Your task to perform on an android device: Check my gmail Image 0: 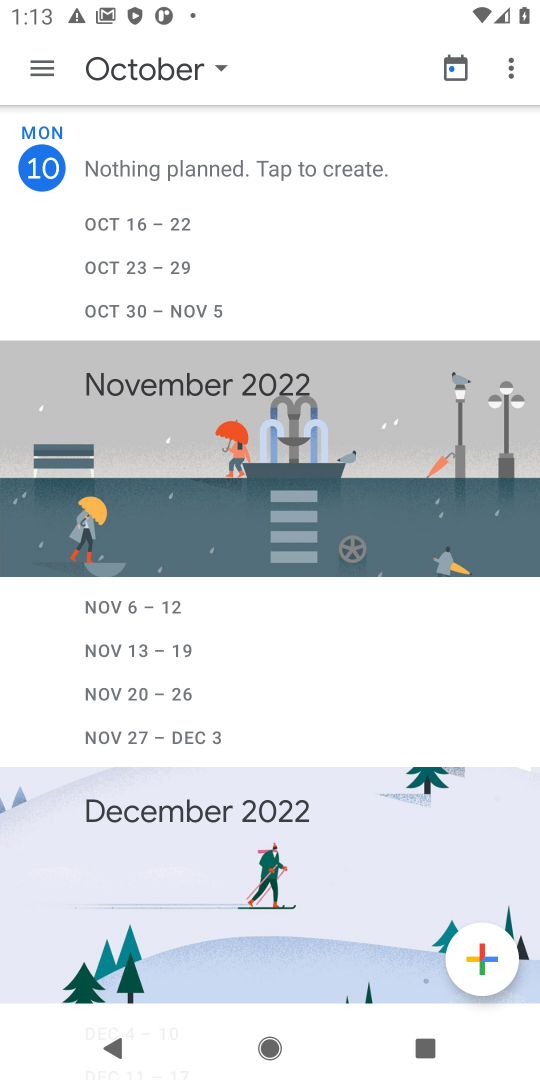
Step 0: press home button
Your task to perform on an android device: Check my gmail Image 1: 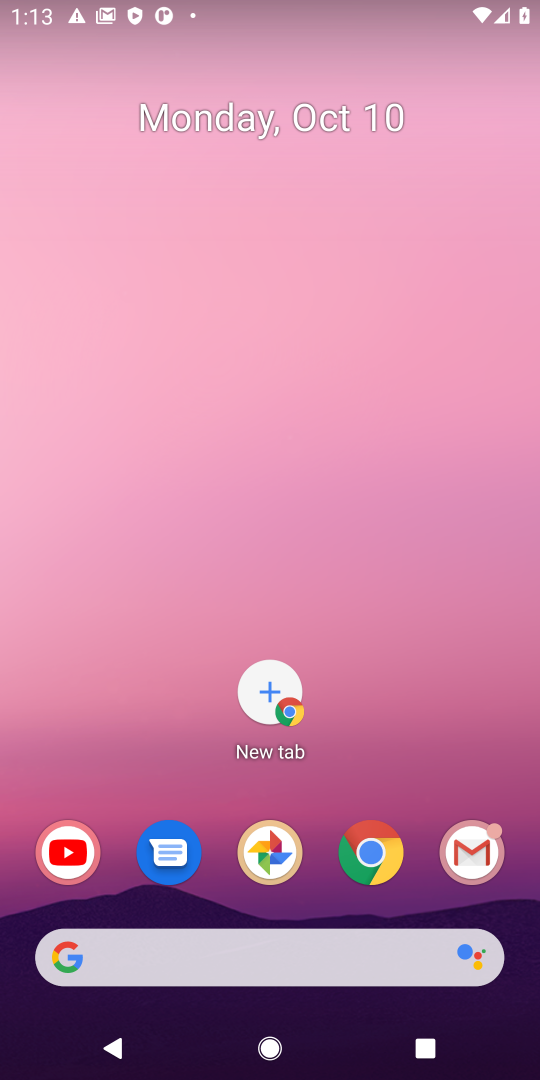
Step 1: click (477, 857)
Your task to perform on an android device: Check my gmail Image 2: 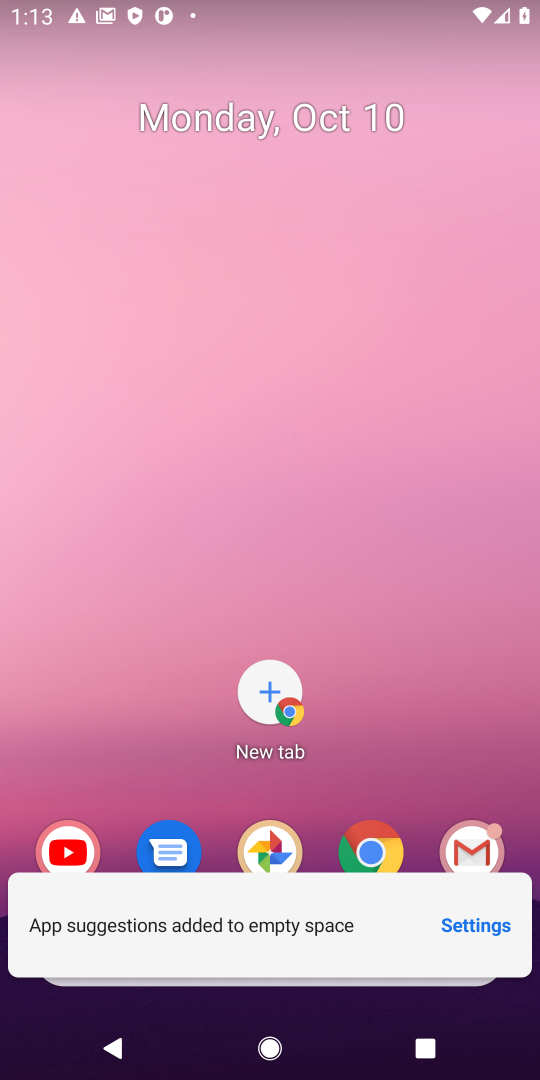
Step 2: click (457, 610)
Your task to perform on an android device: Check my gmail Image 3: 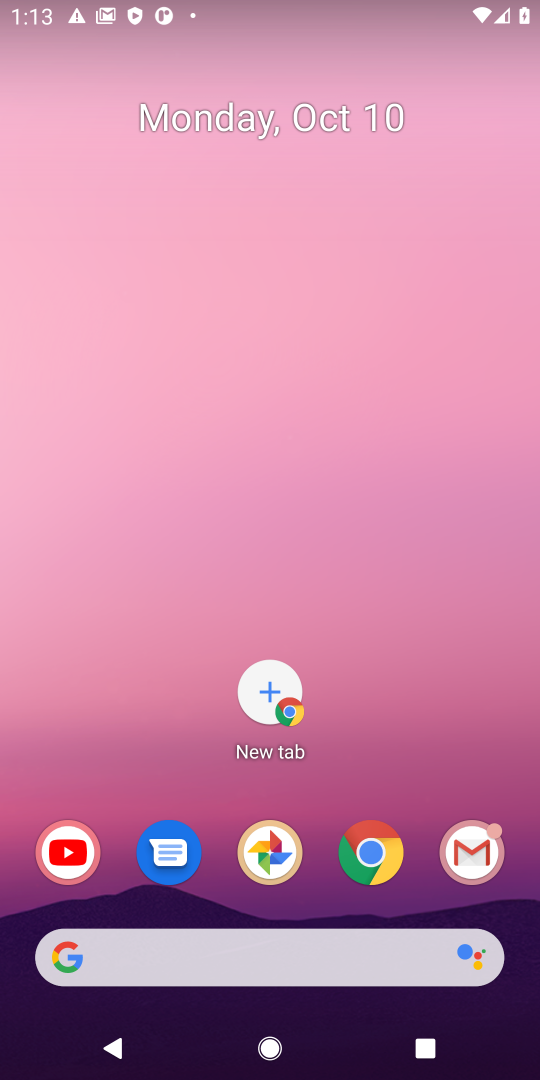
Step 3: click (479, 848)
Your task to perform on an android device: Check my gmail Image 4: 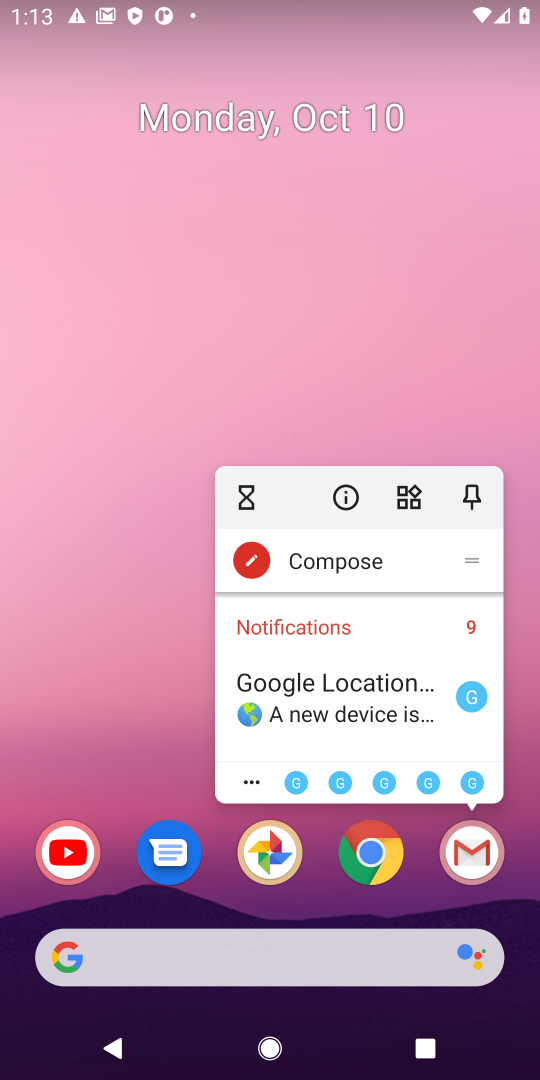
Step 4: click (445, 926)
Your task to perform on an android device: Check my gmail Image 5: 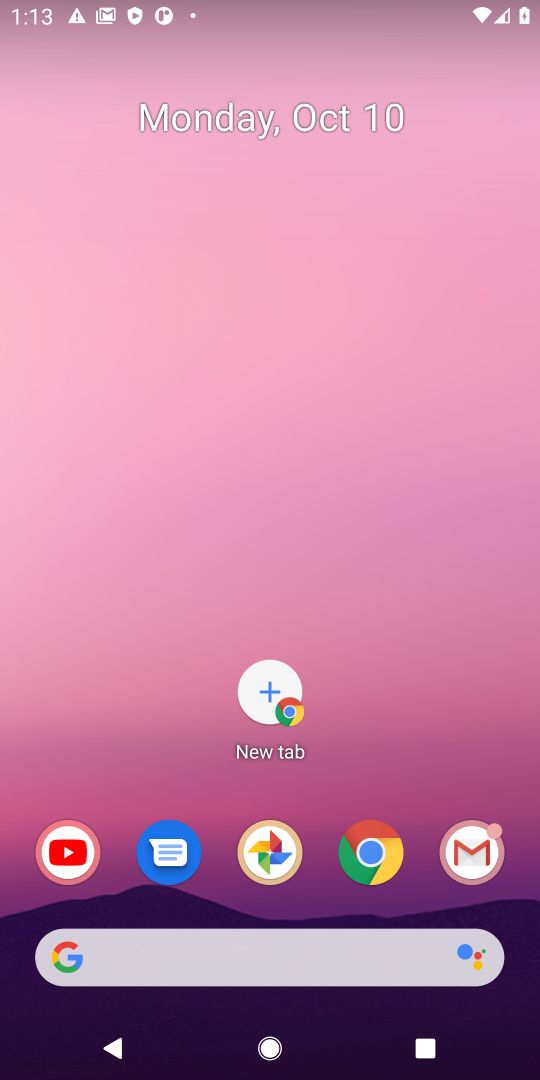
Step 5: drag from (280, 590) to (259, 13)
Your task to perform on an android device: Check my gmail Image 6: 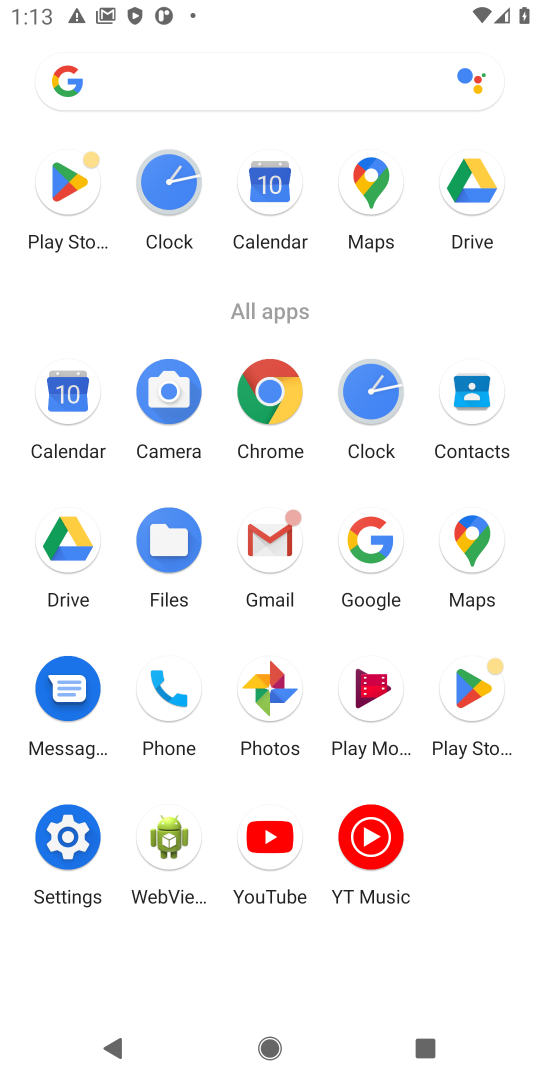
Step 6: click (264, 554)
Your task to perform on an android device: Check my gmail Image 7: 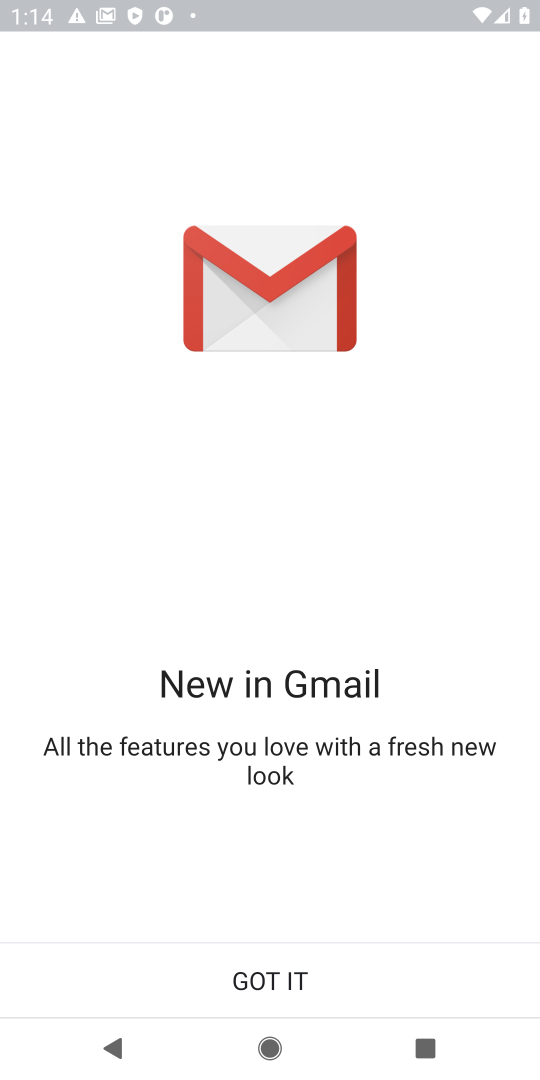
Step 7: click (331, 971)
Your task to perform on an android device: Check my gmail Image 8: 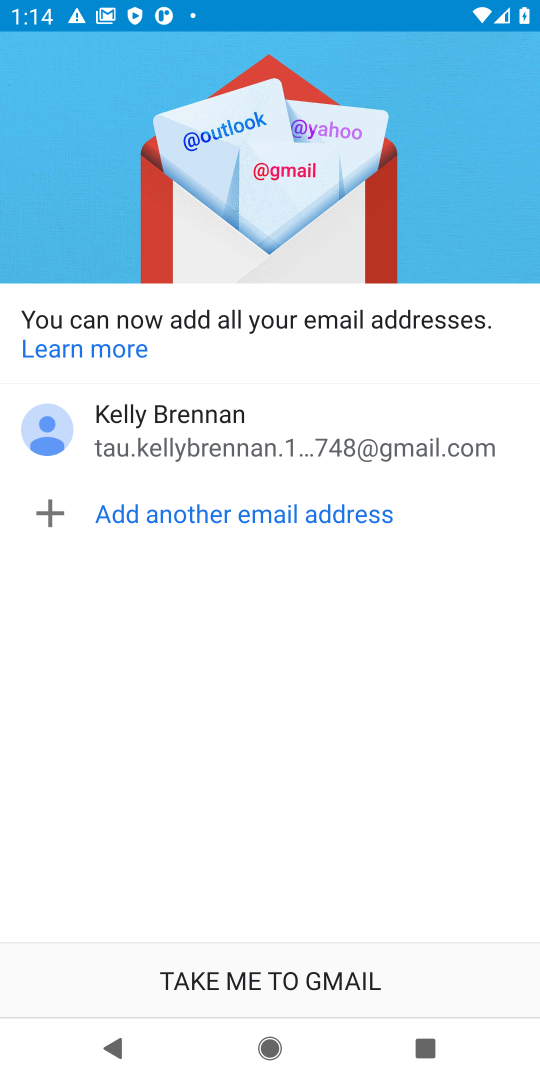
Step 8: click (275, 426)
Your task to perform on an android device: Check my gmail Image 9: 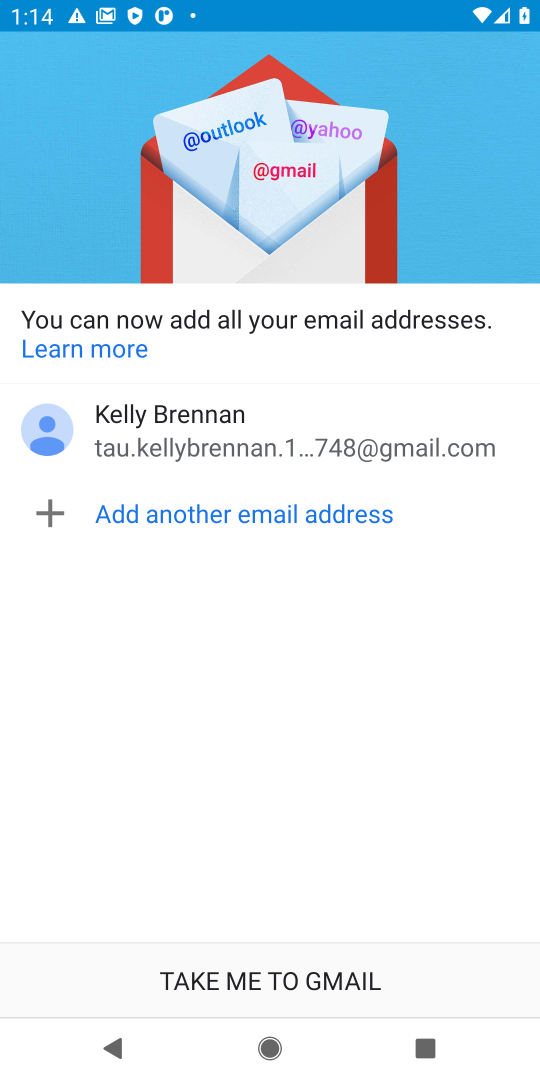
Step 9: click (283, 417)
Your task to perform on an android device: Check my gmail Image 10: 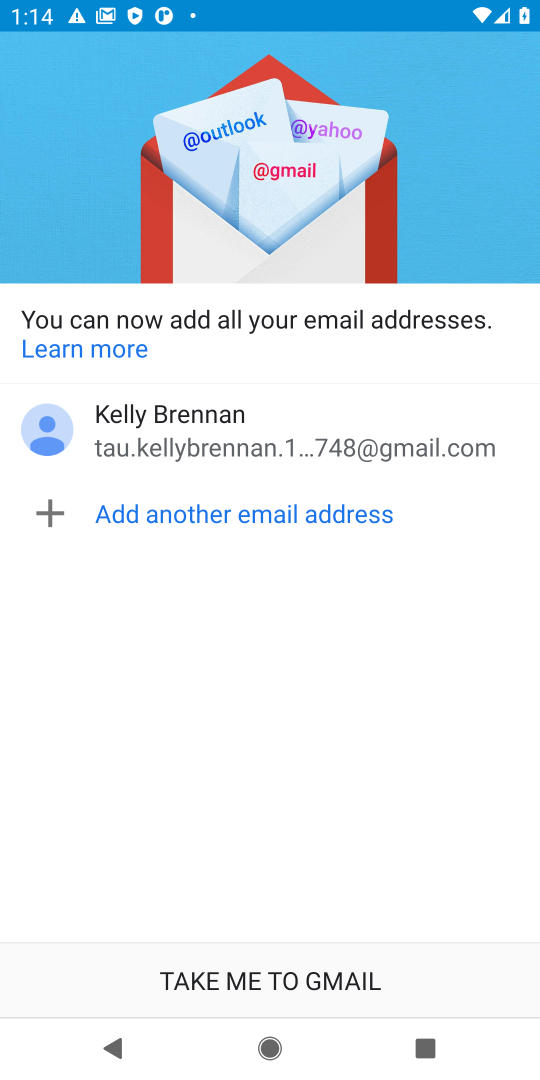
Step 10: click (348, 975)
Your task to perform on an android device: Check my gmail Image 11: 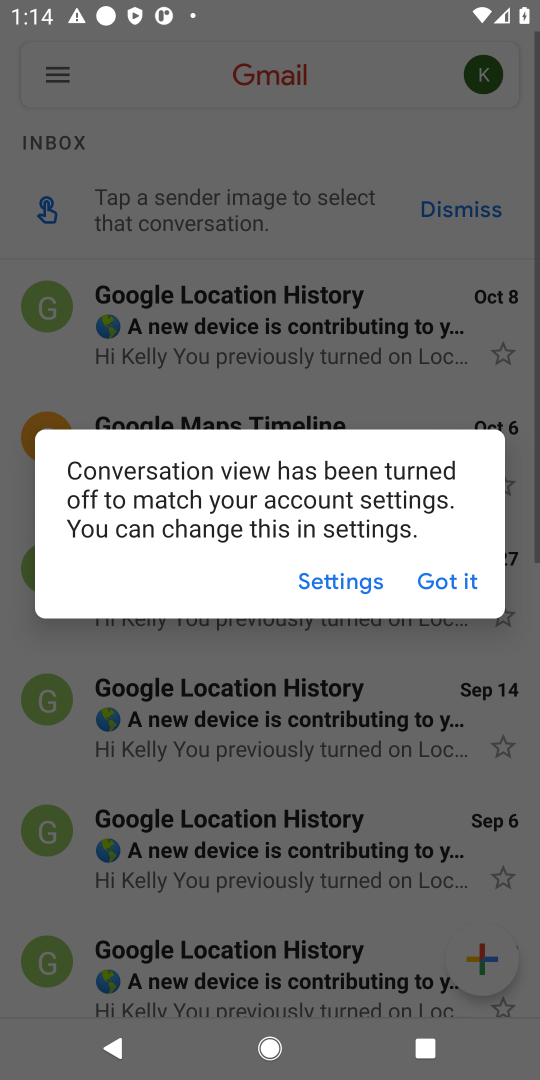
Step 11: click (445, 549)
Your task to perform on an android device: Check my gmail Image 12: 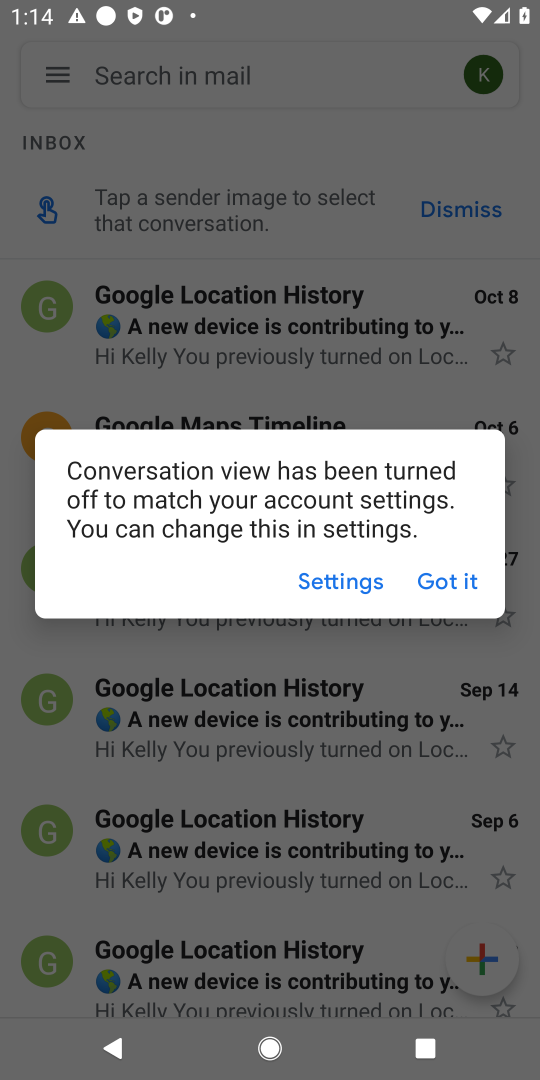
Step 12: click (445, 581)
Your task to perform on an android device: Check my gmail Image 13: 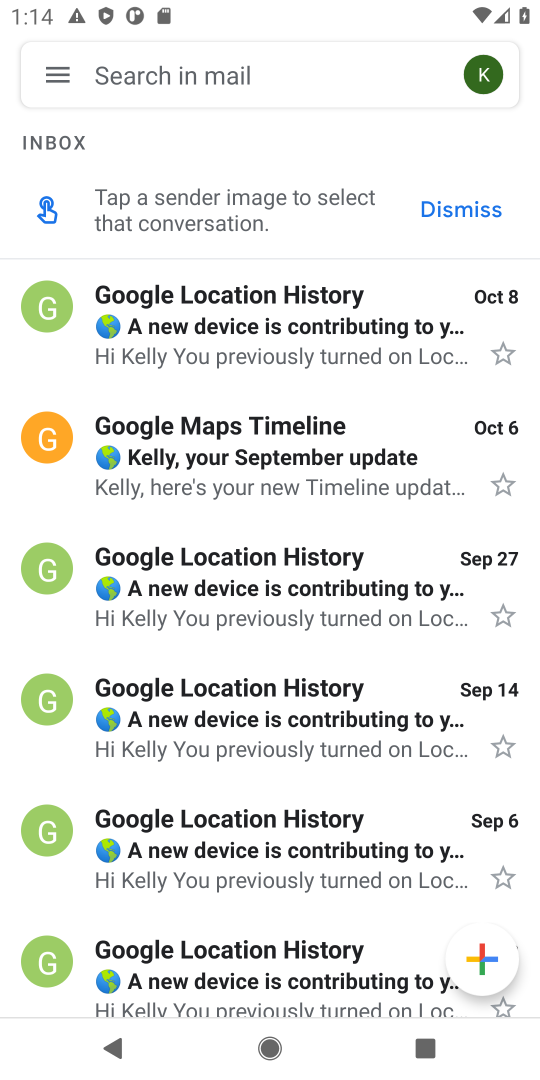
Step 13: drag from (431, 879) to (352, 282)
Your task to perform on an android device: Check my gmail Image 14: 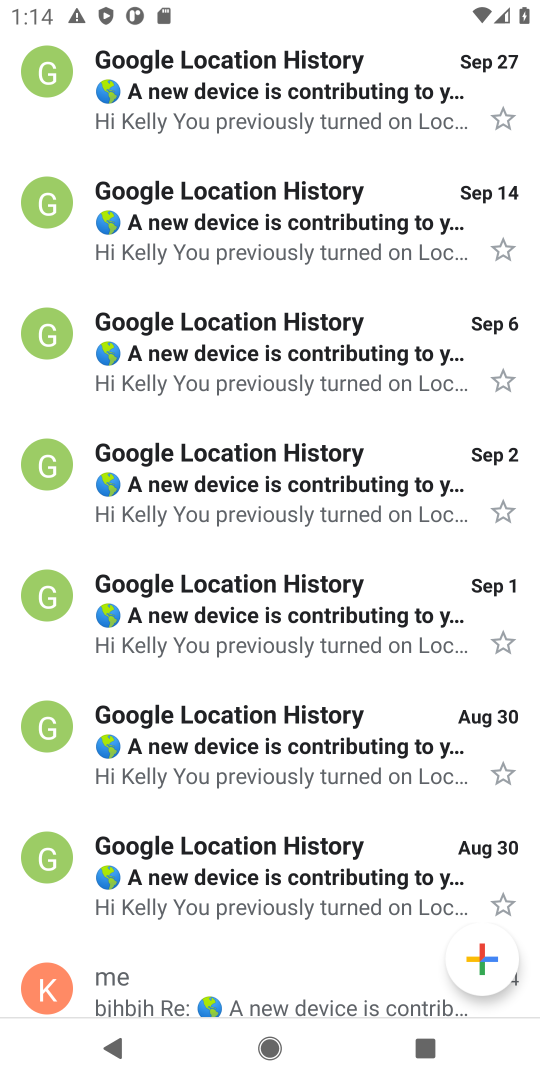
Step 14: drag from (363, 803) to (321, 286)
Your task to perform on an android device: Check my gmail Image 15: 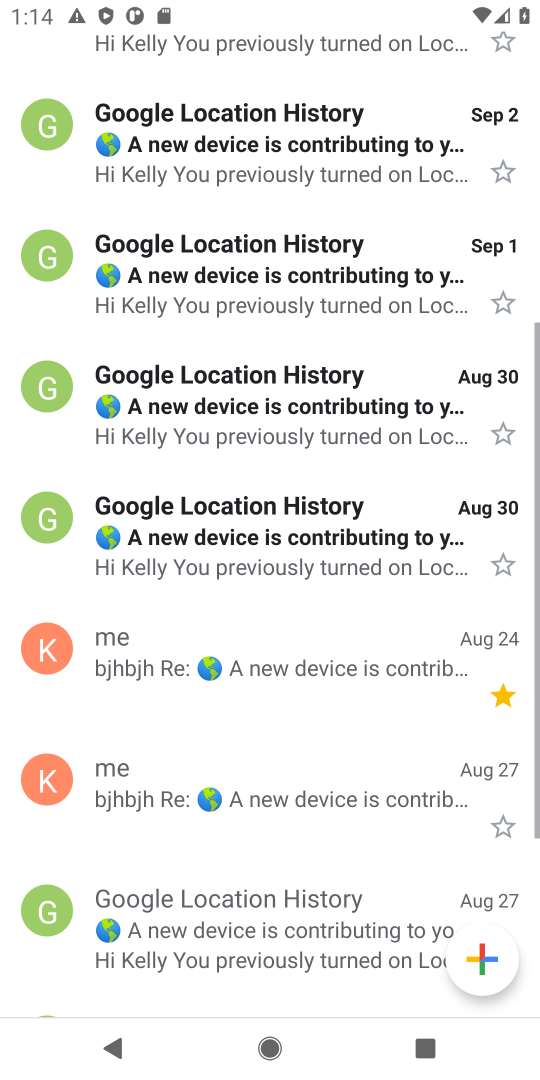
Step 15: drag from (304, 853) to (298, 261)
Your task to perform on an android device: Check my gmail Image 16: 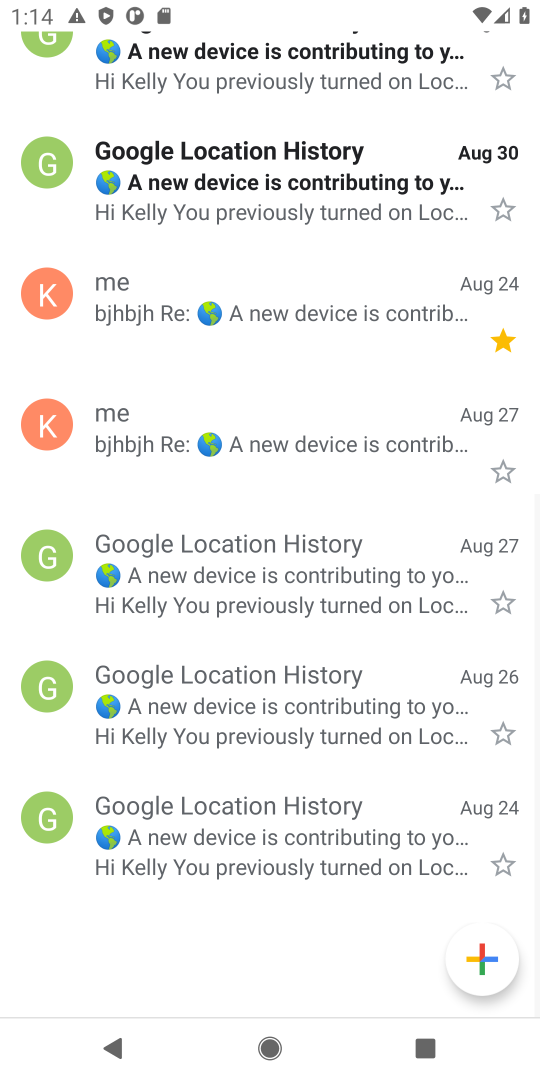
Step 16: drag from (313, 733) to (307, 273)
Your task to perform on an android device: Check my gmail Image 17: 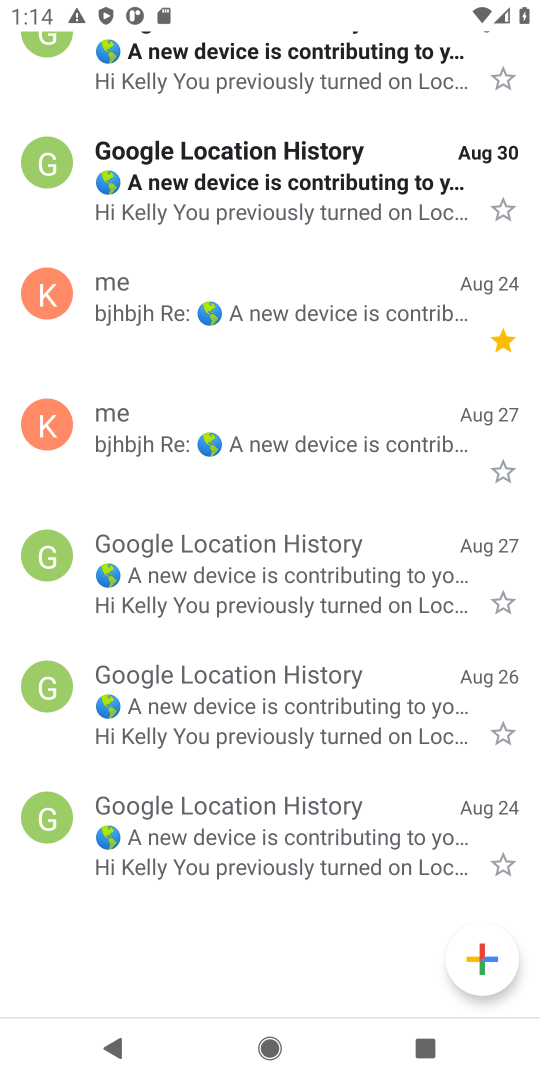
Step 17: click (255, 474)
Your task to perform on an android device: Check my gmail Image 18: 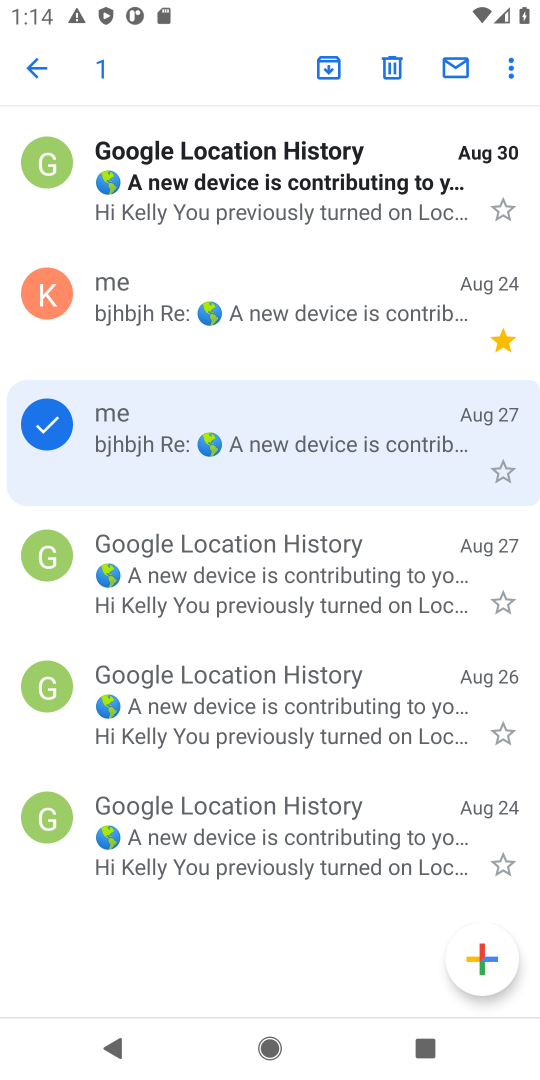
Step 18: click (255, 474)
Your task to perform on an android device: Check my gmail Image 19: 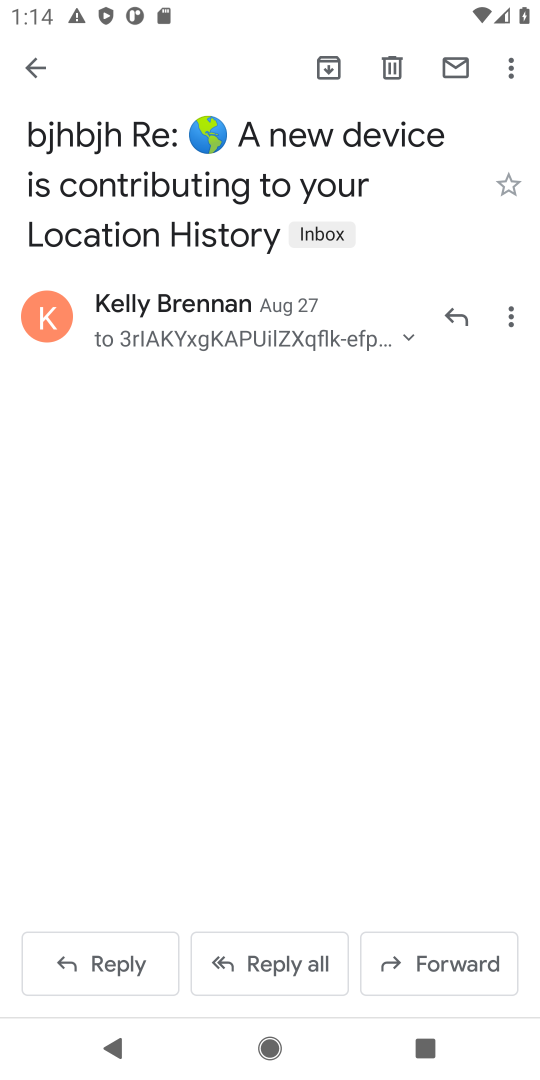
Step 19: drag from (366, 835) to (319, 318)
Your task to perform on an android device: Check my gmail Image 20: 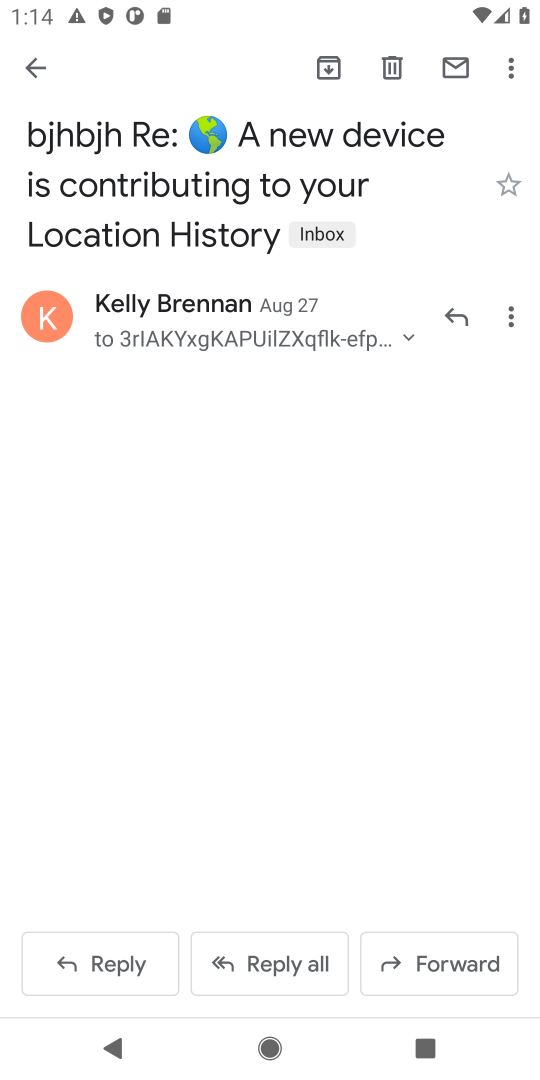
Step 20: drag from (353, 767) to (382, 453)
Your task to perform on an android device: Check my gmail Image 21: 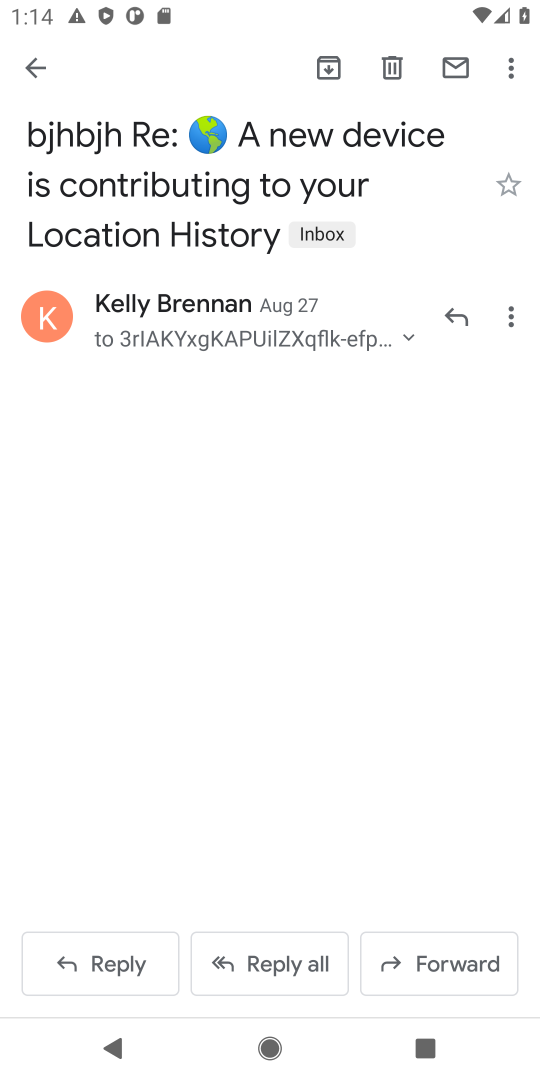
Step 21: drag from (394, 658) to (371, 457)
Your task to perform on an android device: Check my gmail Image 22: 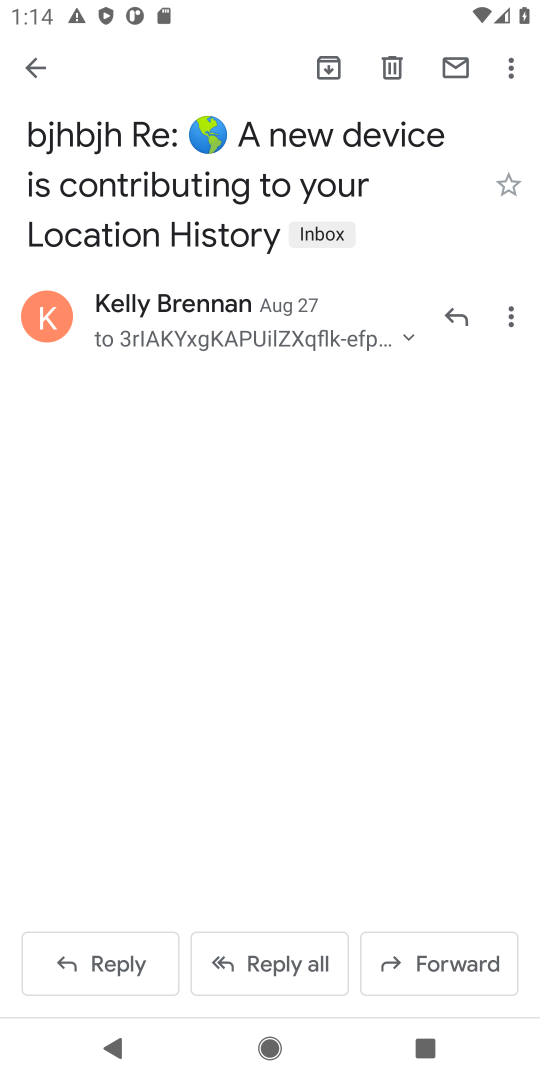
Step 22: drag from (388, 714) to (365, 416)
Your task to perform on an android device: Check my gmail Image 23: 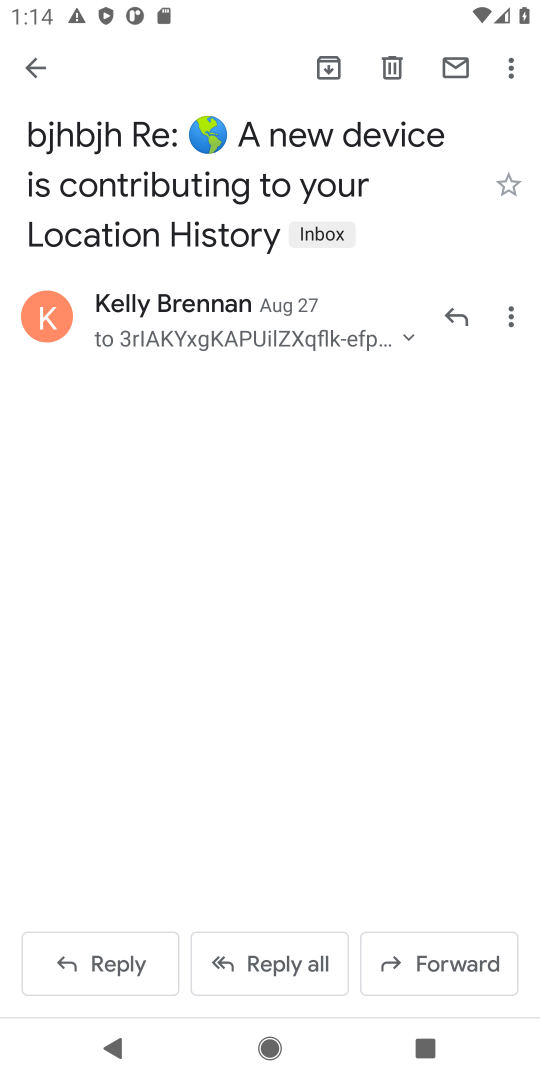
Step 23: drag from (357, 789) to (352, 444)
Your task to perform on an android device: Check my gmail Image 24: 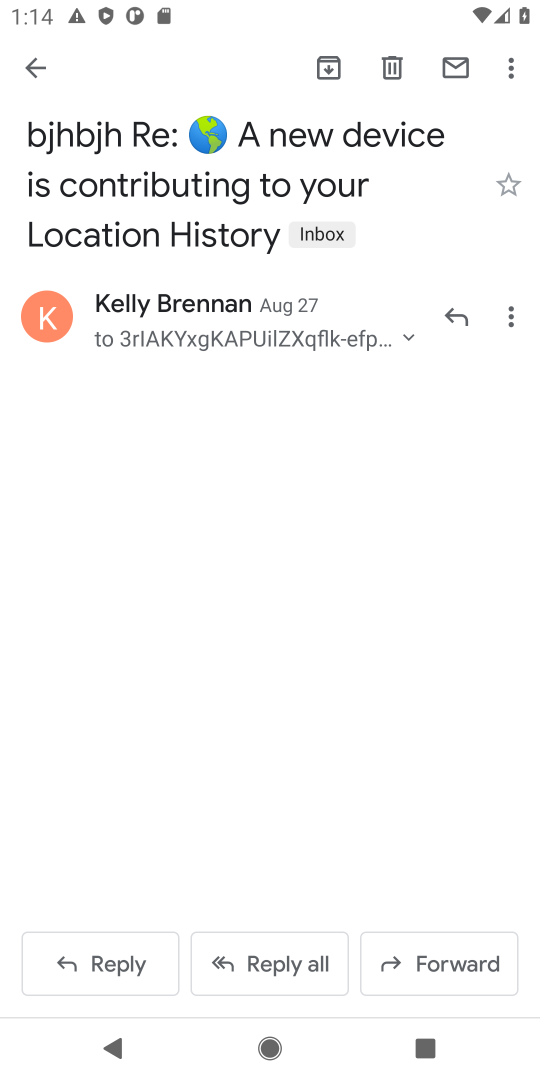
Step 24: drag from (389, 716) to (365, 479)
Your task to perform on an android device: Check my gmail Image 25: 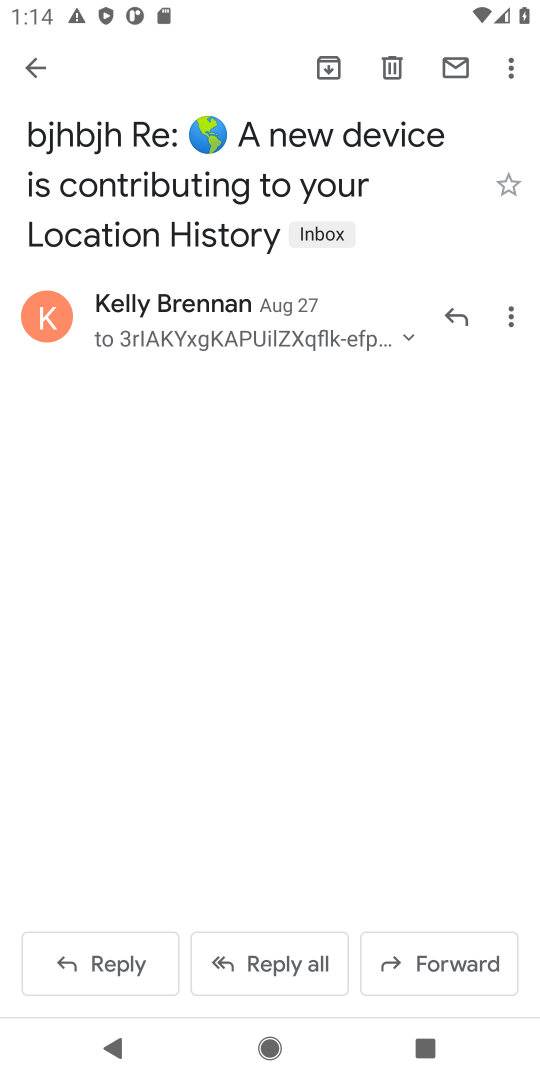
Step 25: drag from (404, 758) to (385, 518)
Your task to perform on an android device: Check my gmail Image 26: 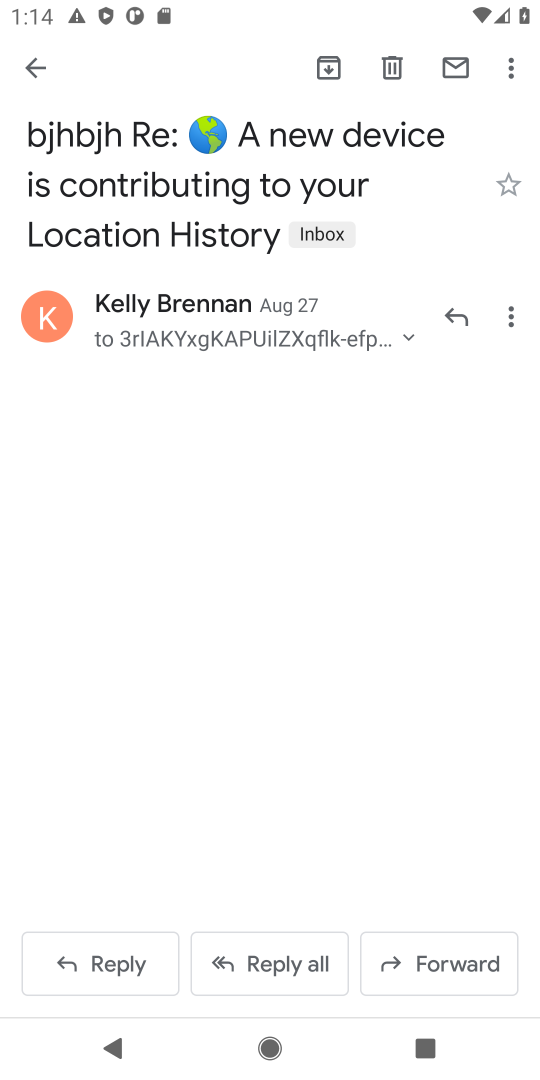
Step 26: drag from (366, 779) to (371, 529)
Your task to perform on an android device: Check my gmail Image 27: 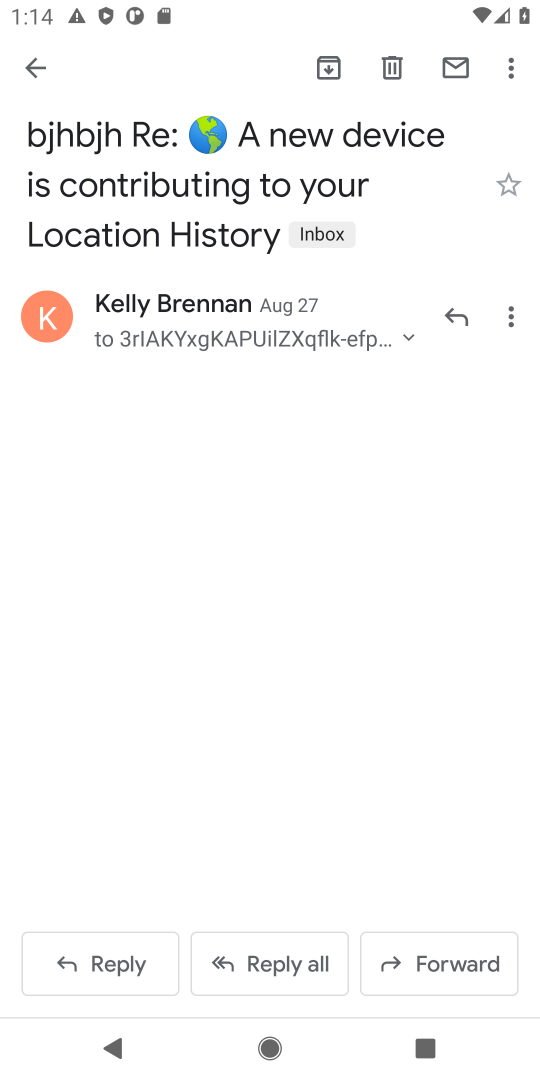
Step 27: drag from (392, 804) to (386, 569)
Your task to perform on an android device: Check my gmail Image 28: 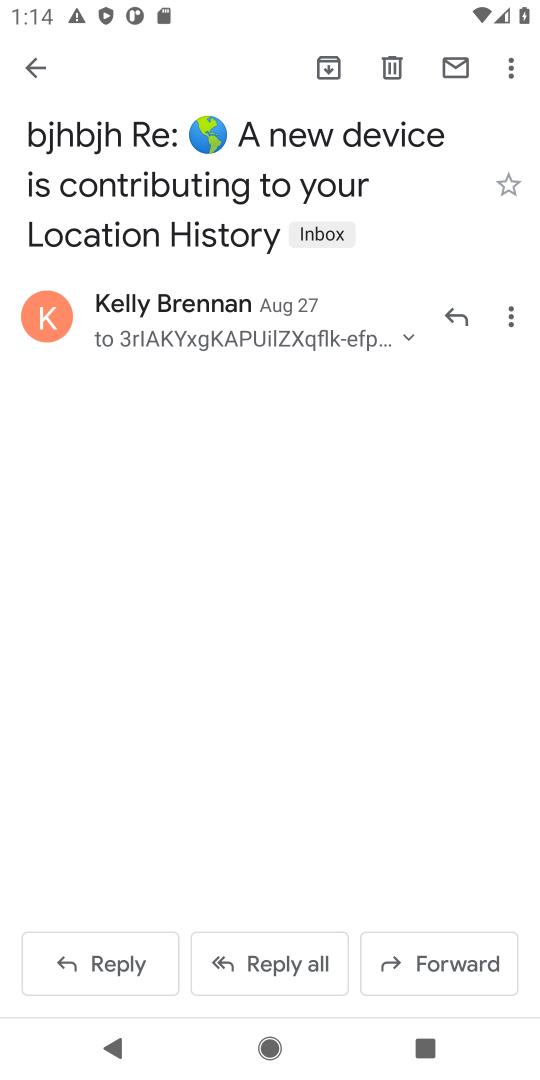
Step 28: drag from (395, 762) to (388, 551)
Your task to perform on an android device: Check my gmail Image 29: 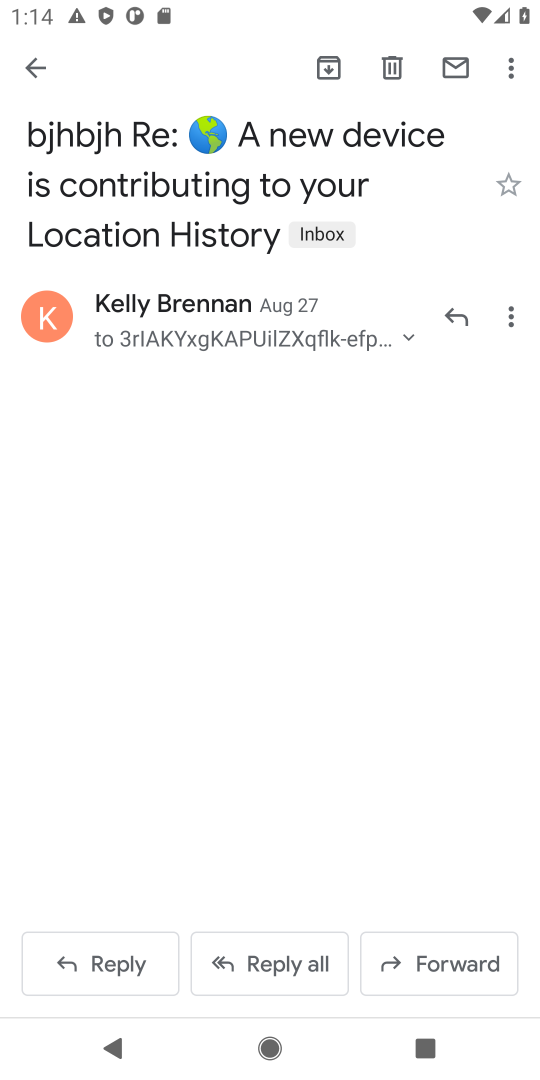
Step 29: drag from (369, 638) to (326, 383)
Your task to perform on an android device: Check my gmail Image 30: 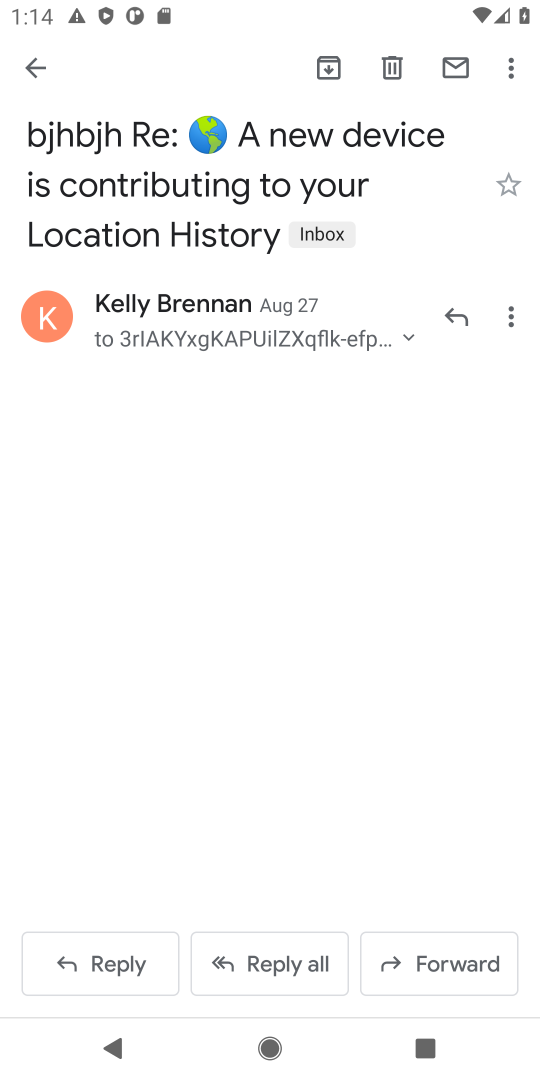
Step 30: drag from (362, 768) to (343, 454)
Your task to perform on an android device: Check my gmail Image 31: 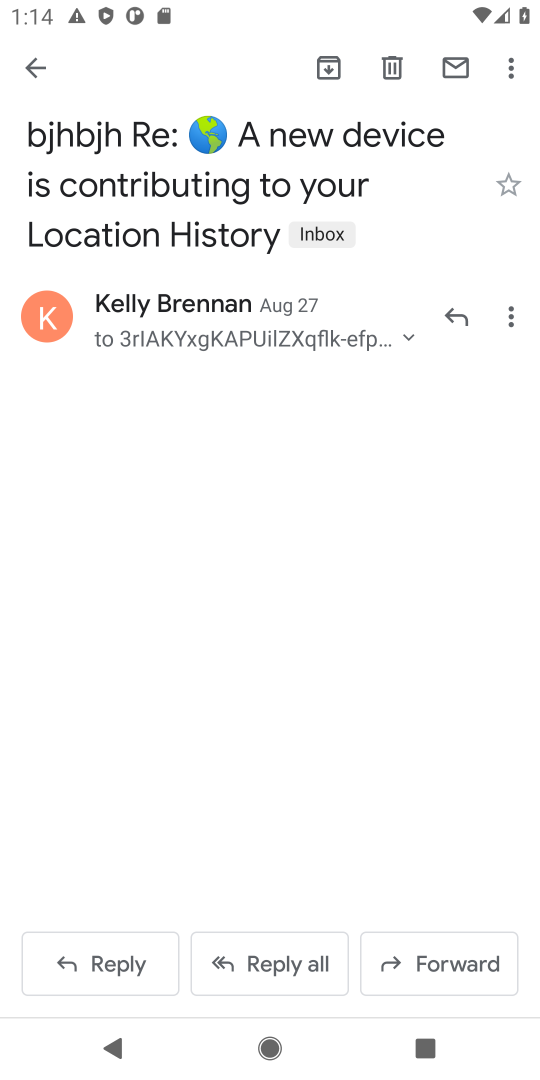
Step 31: drag from (325, 793) to (325, 476)
Your task to perform on an android device: Check my gmail Image 32: 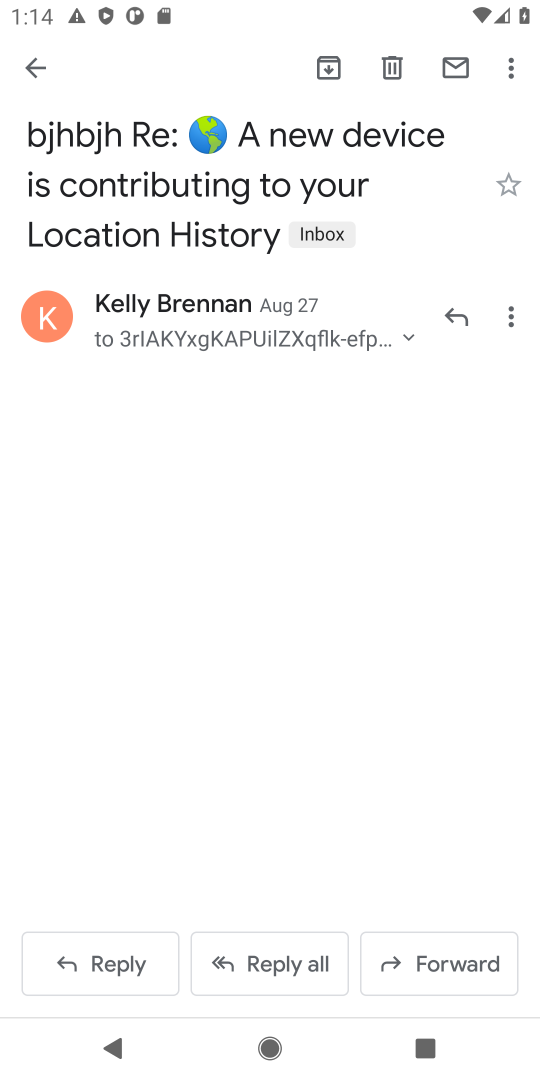
Step 32: click (32, 72)
Your task to perform on an android device: Check my gmail Image 33: 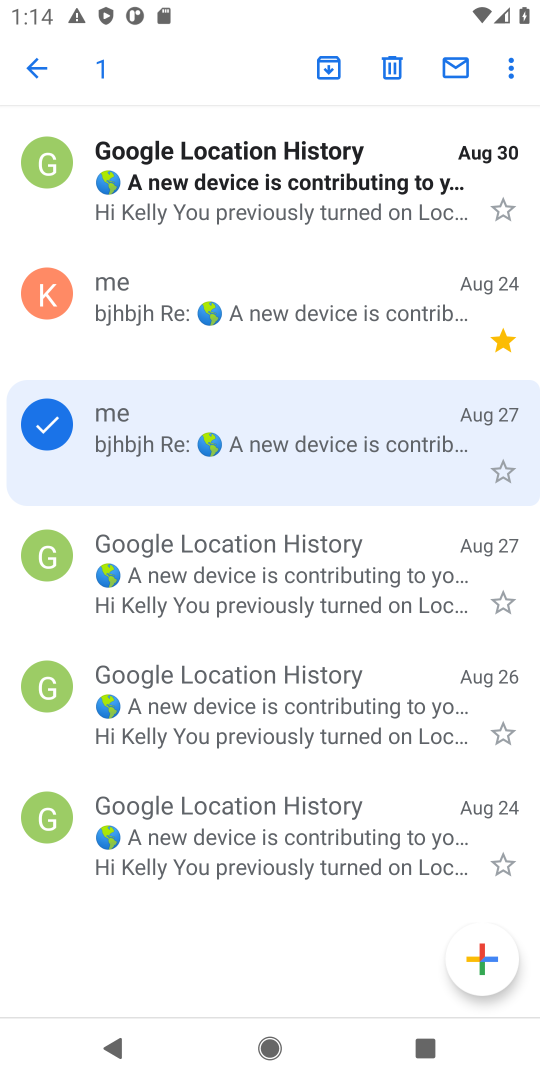
Step 33: click (244, 152)
Your task to perform on an android device: Check my gmail Image 34: 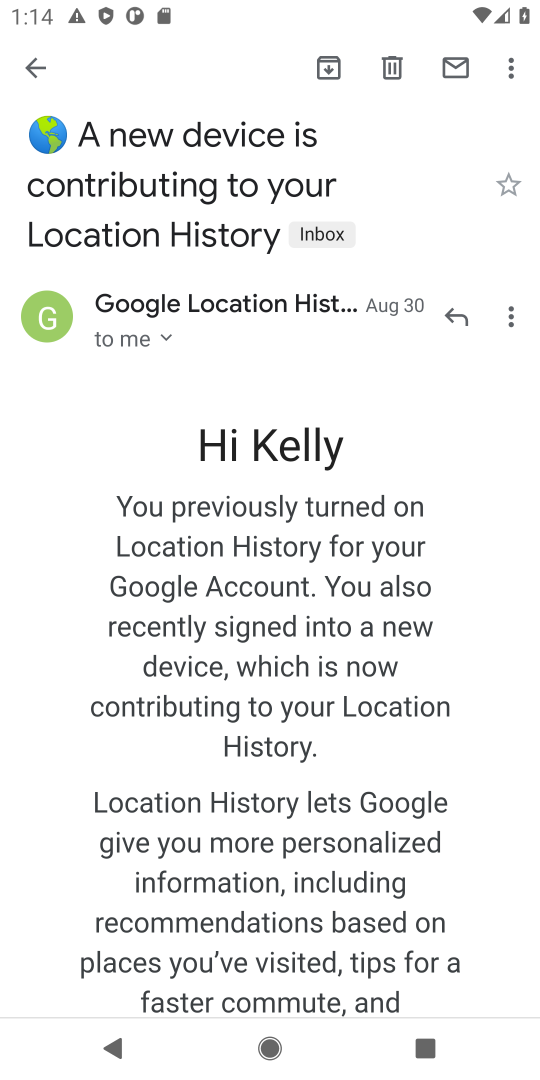
Step 34: drag from (354, 820) to (358, 210)
Your task to perform on an android device: Check my gmail Image 35: 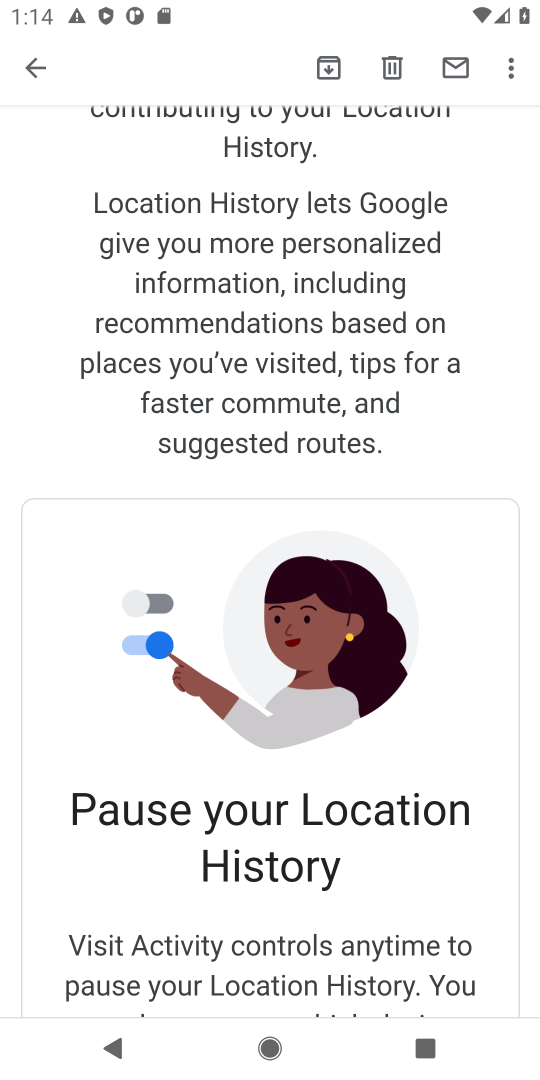
Step 35: drag from (395, 860) to (389, 273)
Your task to perform on an android device: Check my gmail Image 36: 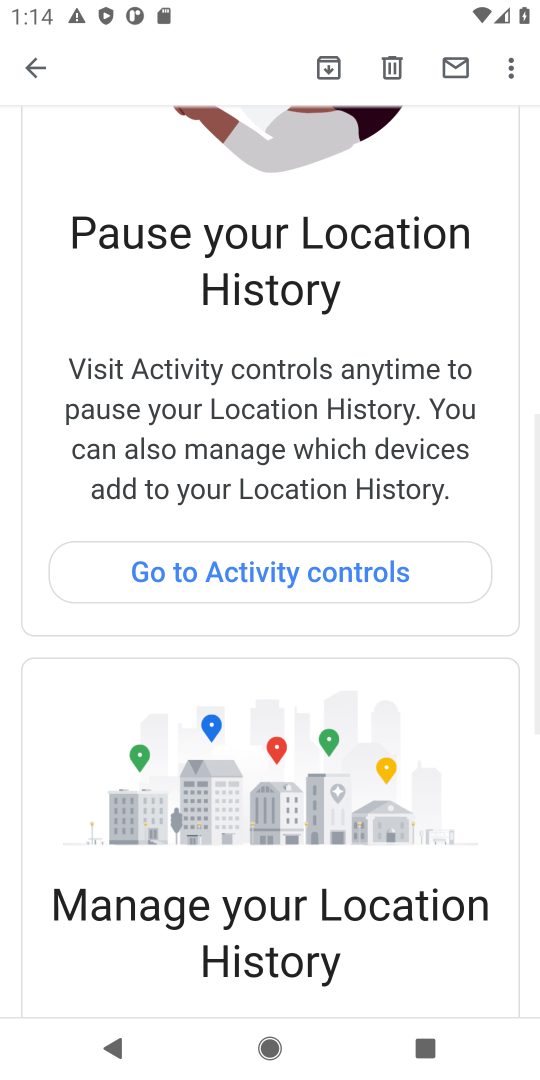
Step 36: drag from (434, 871) to (425, 398)
Your task to perform on an android device: Check my gmail Image 37: 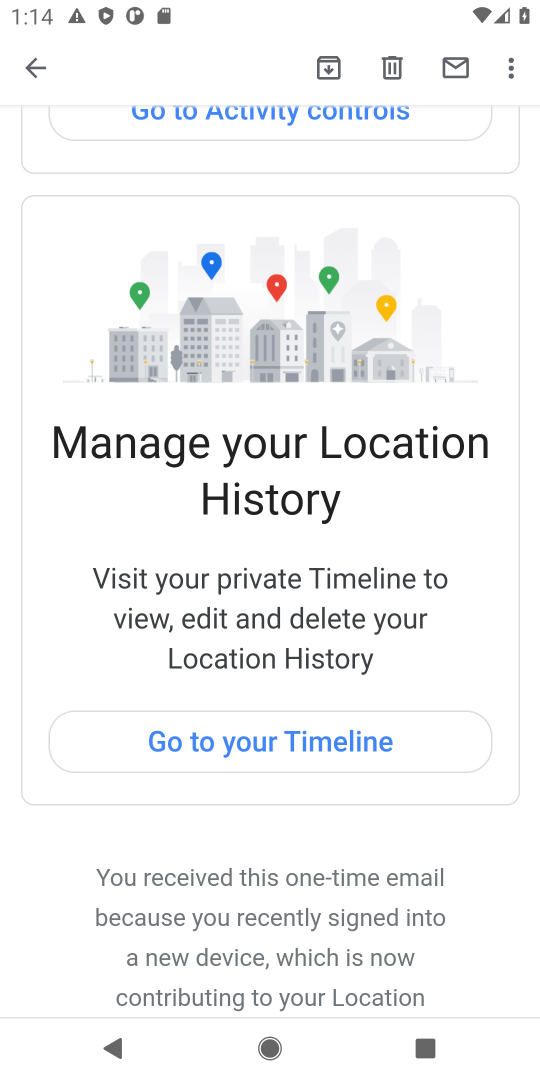
Step 37: drag from (467, 788) to (470, 455)
Your task to perform on an android device: Check my gmail Image 38: 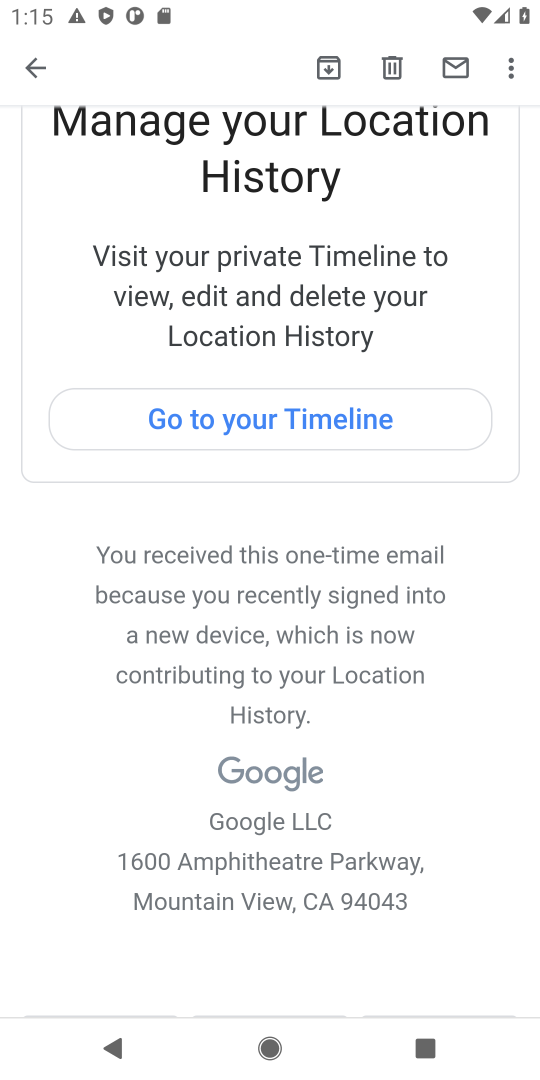
Step 38: drag from (446, 876) to (415, 518)
Your task to perform on an android device: Check my gmail Image 39: 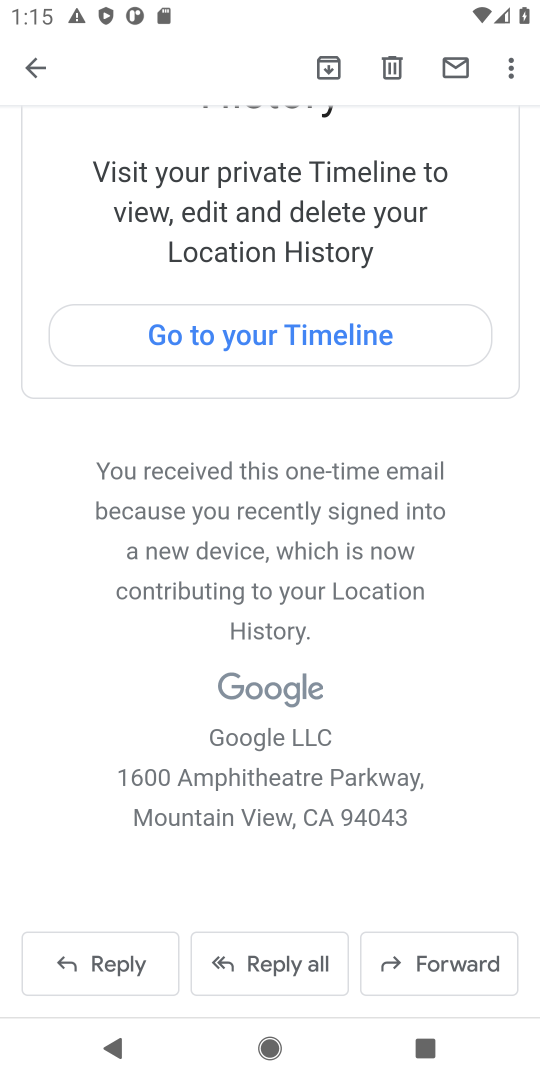
Step 39: drag from (388, 279) to (434, 960)
Your task to perform on an android device: Check my gmail Image 40: 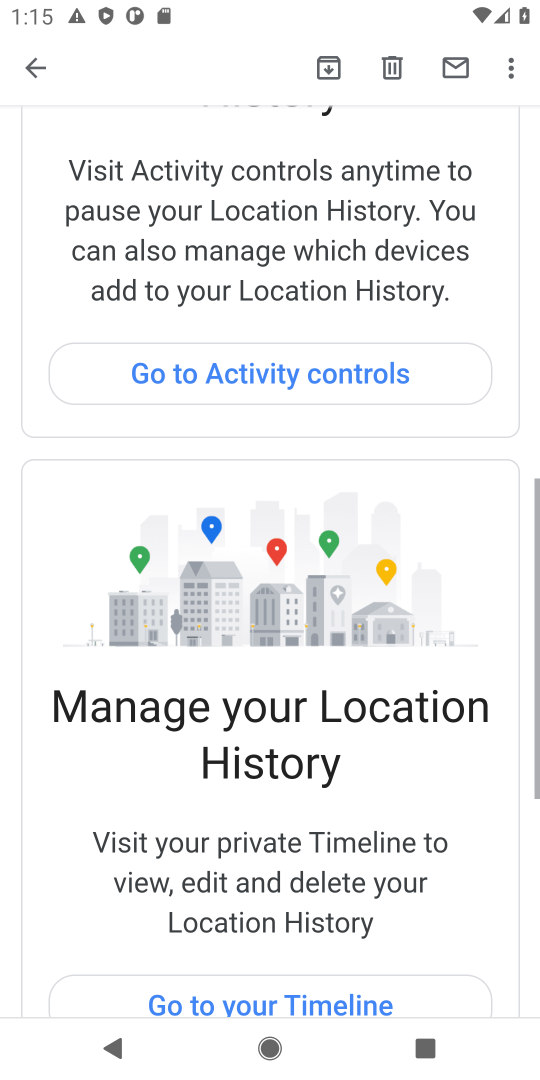
Step 40: drag from (357, 332) to (421, 1012)
Your task to perform on an android device: Check my gmail Image 41: 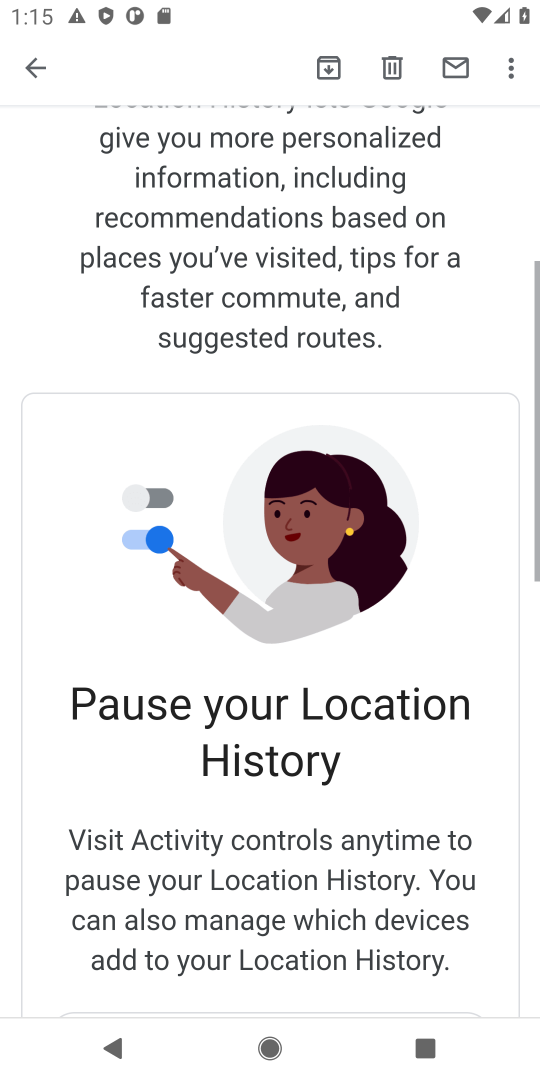
Step 41: drag from (327, 445) to (390, 881)
Your task to perform on an android device: Check my gmail Image 42: 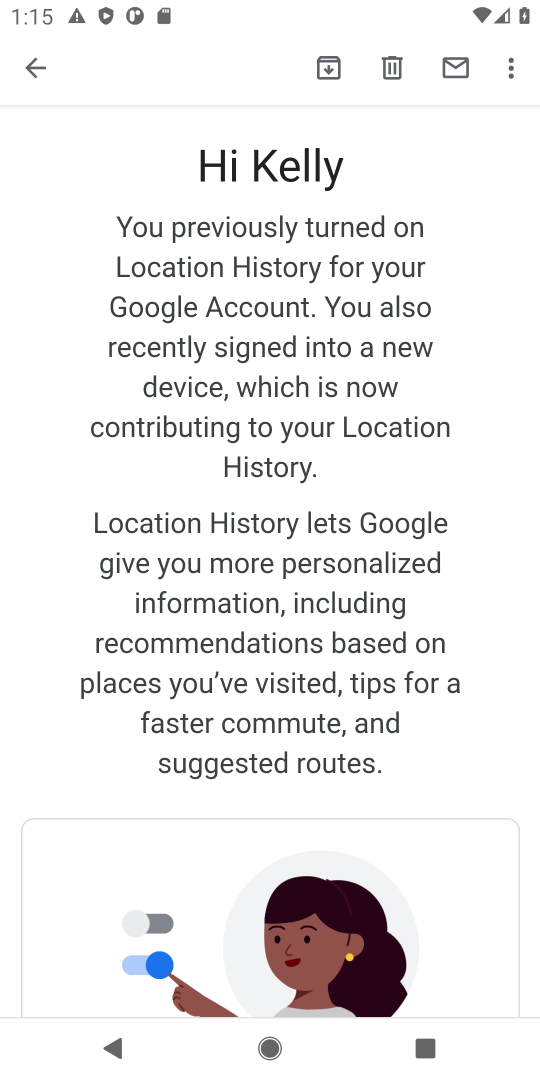
Step 42: drag from (305, 324) to (324, 671)
Your task to perform on an android device: Check my gmail Image 43: 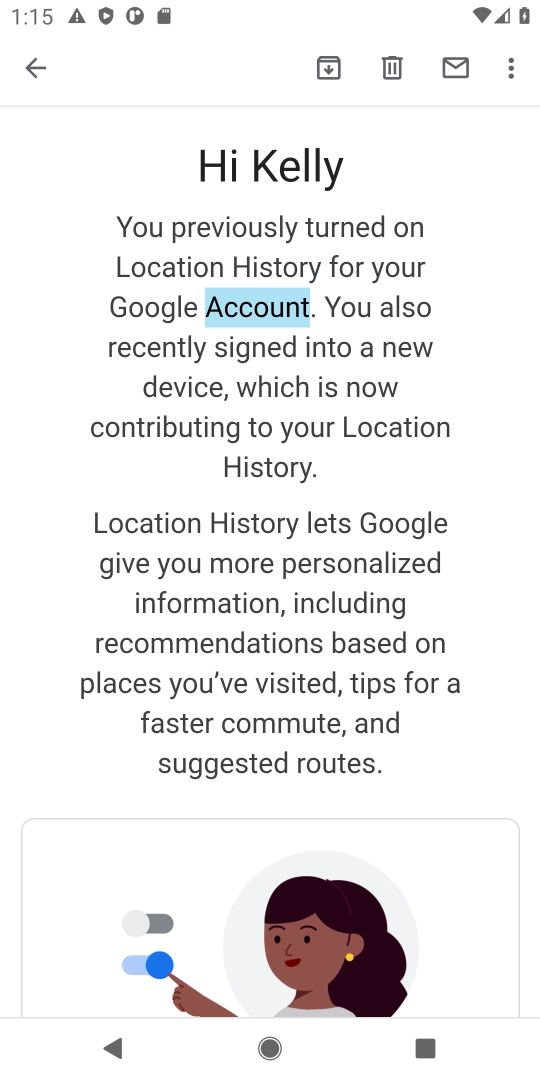
Step 43: press back button
Your task to perform on an android device: Check my gmail Image 44: 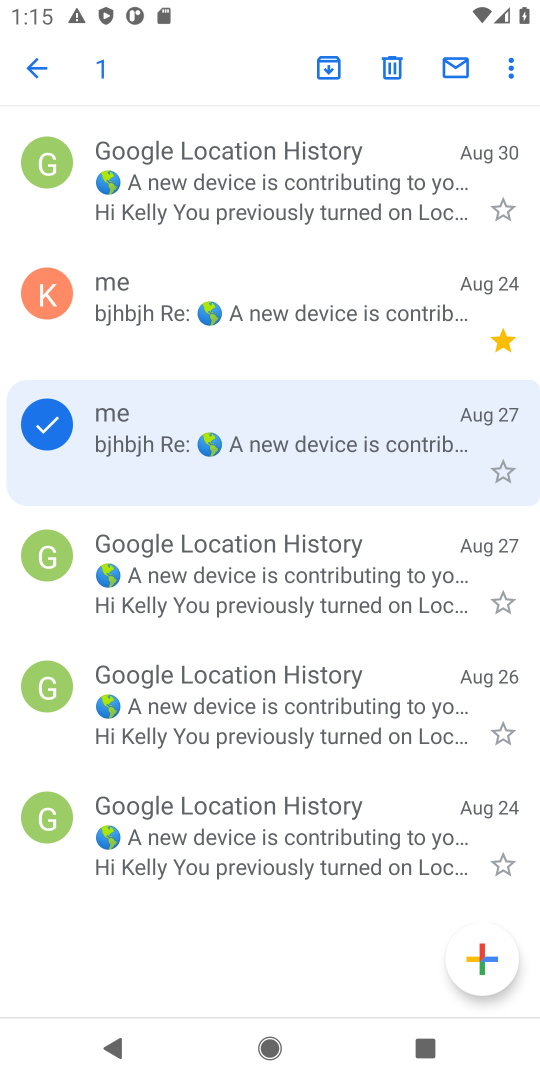
Step 44: click (36, 66)
Your task to perform on an android device: Check my gmail Image 45: 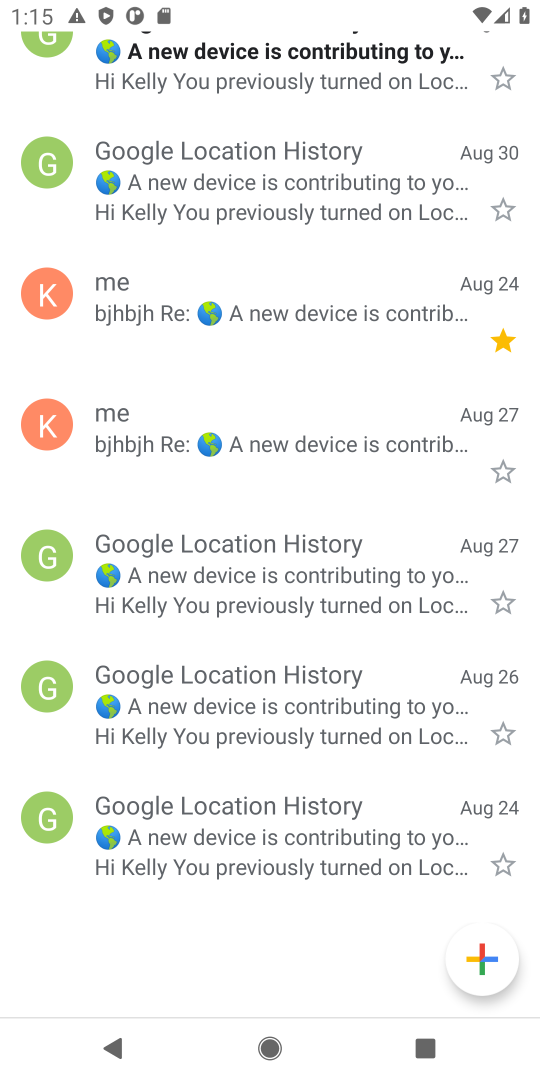
Step 45: drag from (324, 246) to (398, 896)
Your task to perform on an android device: Check my gmail Image 46: 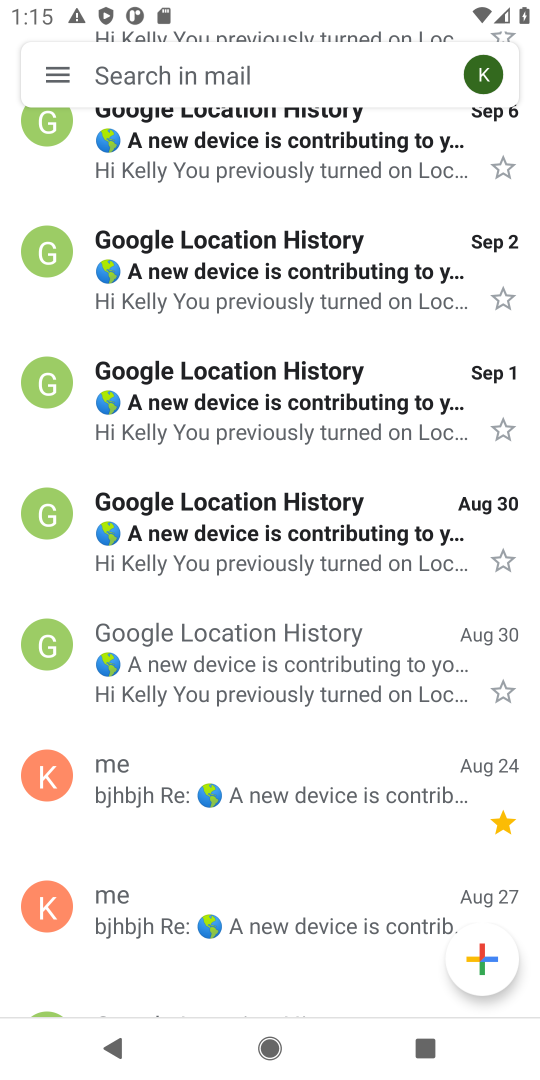
Step 46: drag from (250, 346) to (311, 843)
Your task to perform on an android device: Check my gmail Image 47: 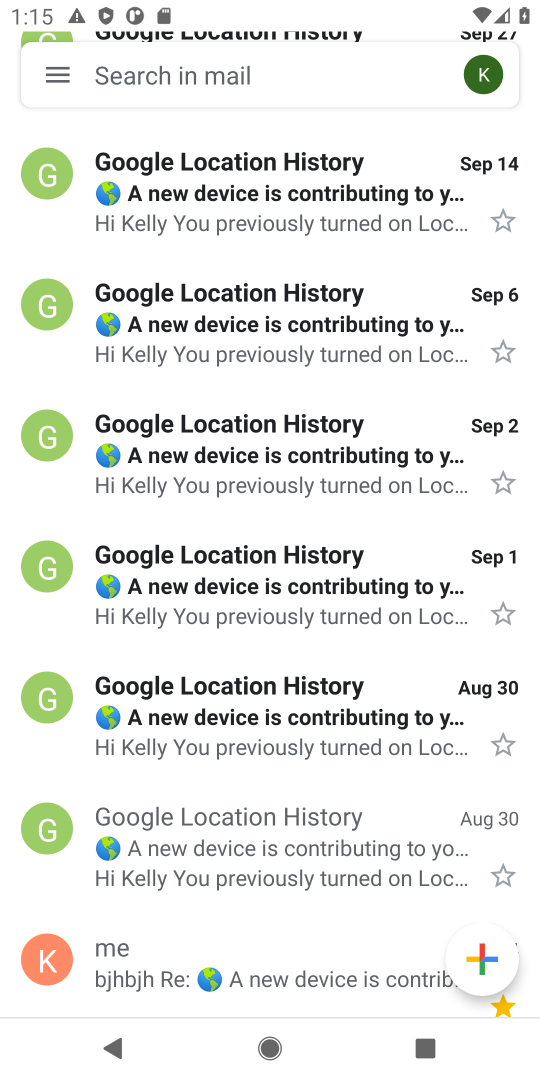
Step 47: click (198, 194)
Your task to perform on an android device: Check my gmail Image 48: 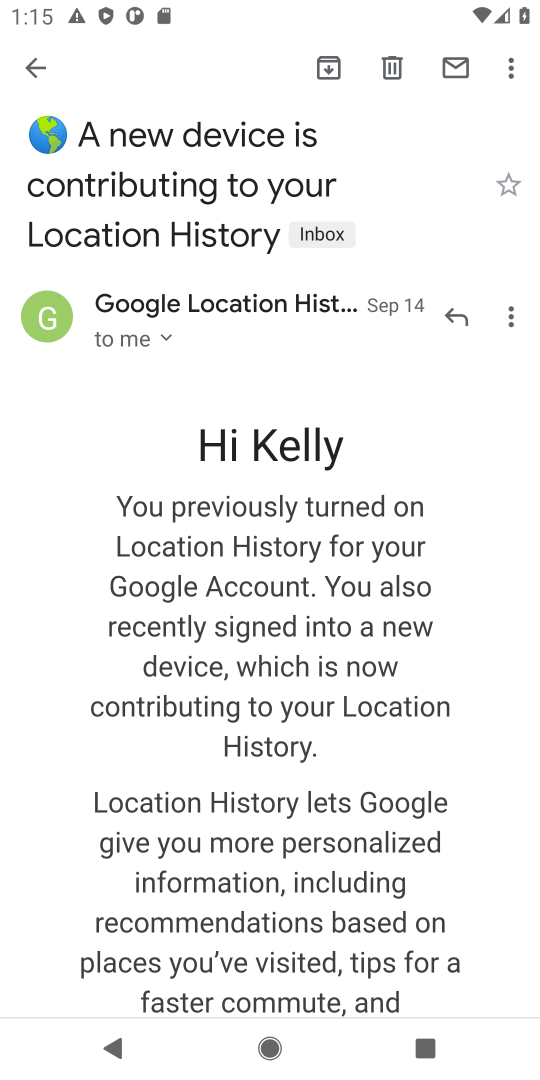
Step 48: drag from (248, 772) to (259, 326)
Your task to perform on an android device: Check my gmail Image 49: 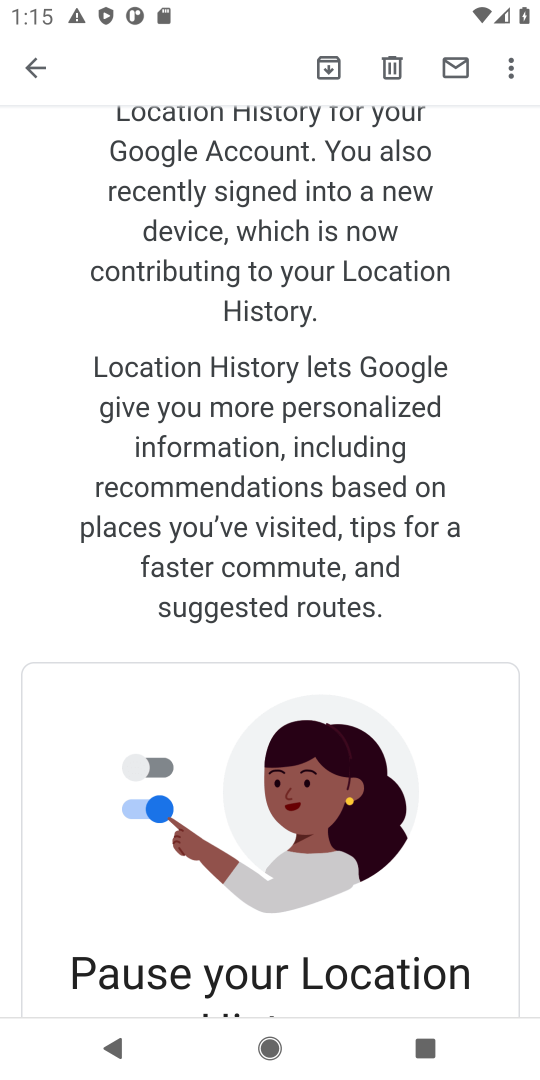
Step 49: drag from (314, 911) to (333, 413)
Your task to perform on an android device: Check my gmail Image 50: 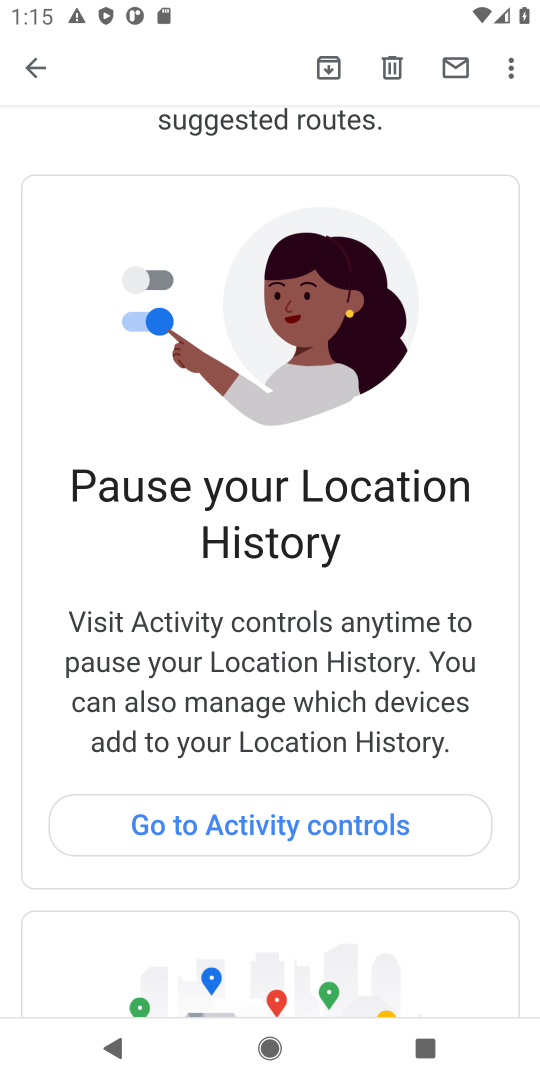
Step 50: drag from (321, 738) to (349, 382)
Your task to perform on an android device: Check my gmail Image 51: 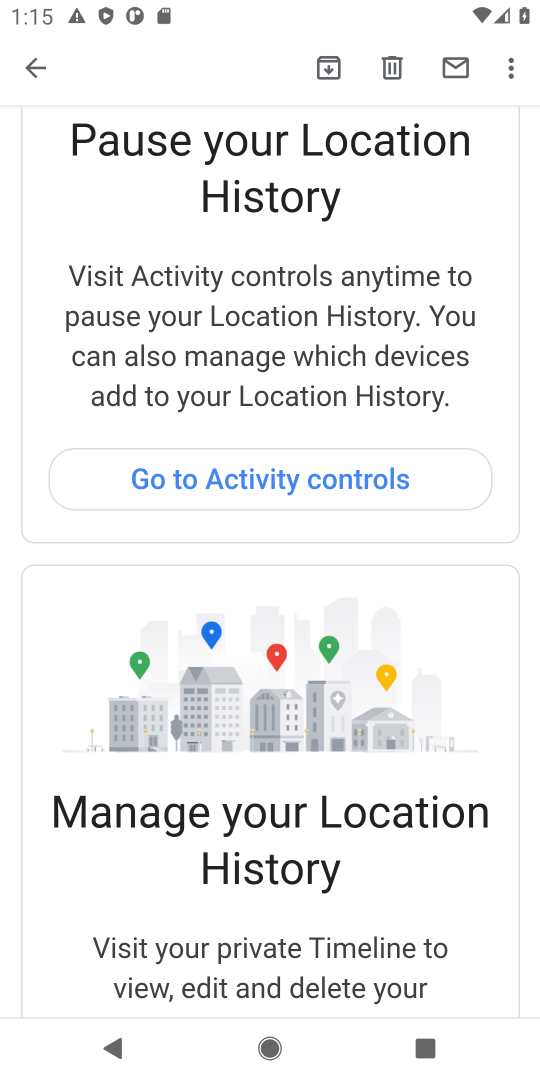
Step 51: drag from (345, 660) to (318, 279)
Your task to perform on an android device: Check my gmail Image 52: 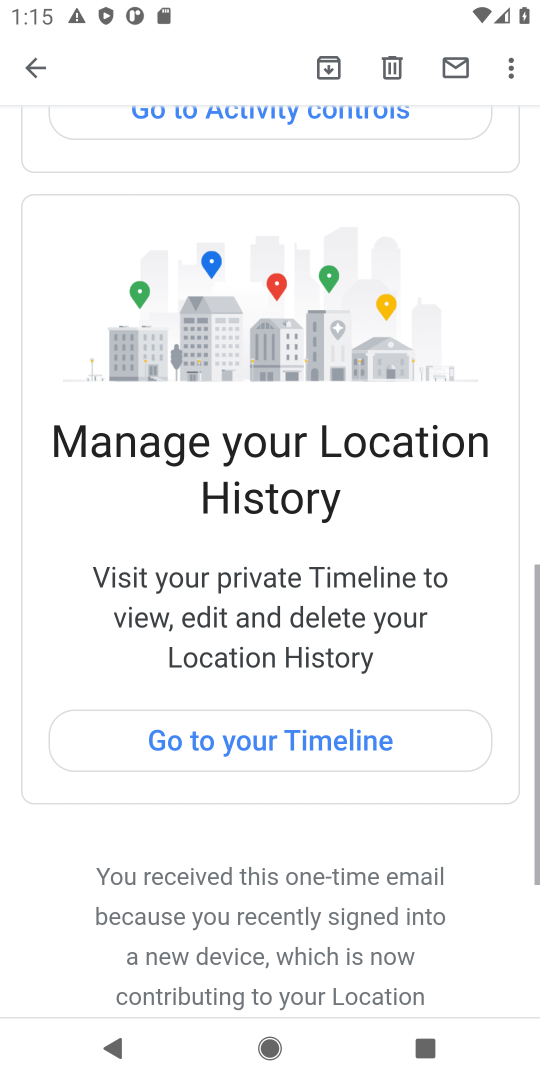
Step 52: drag from (319, 663) to (296, 408)
Your task to perform on an android device: Check my gmail Image 53: 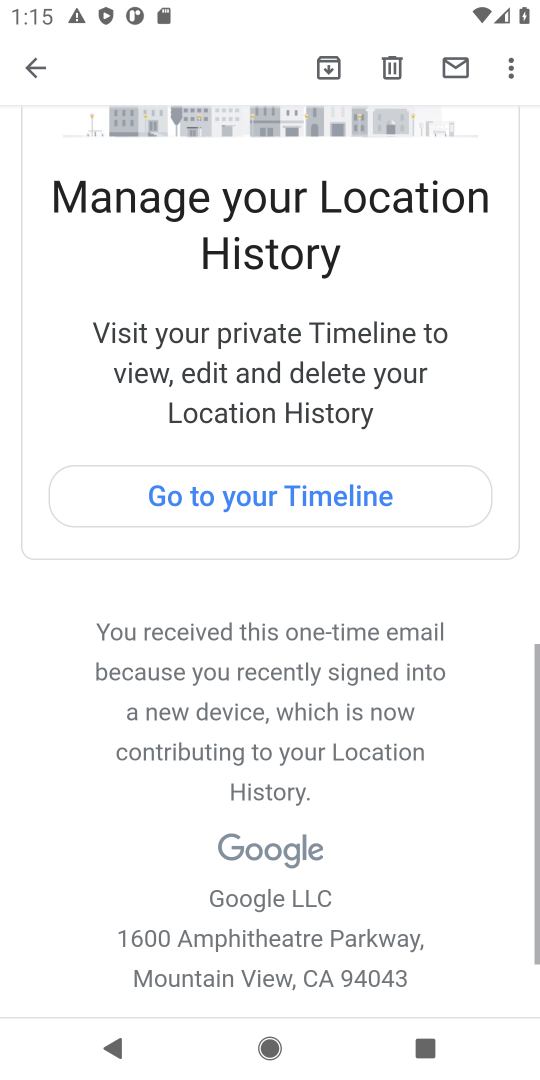
Step 53: drag from (301, 709) to (300, 373)
Your task to perform on an android device: Check my gmail Image 54: 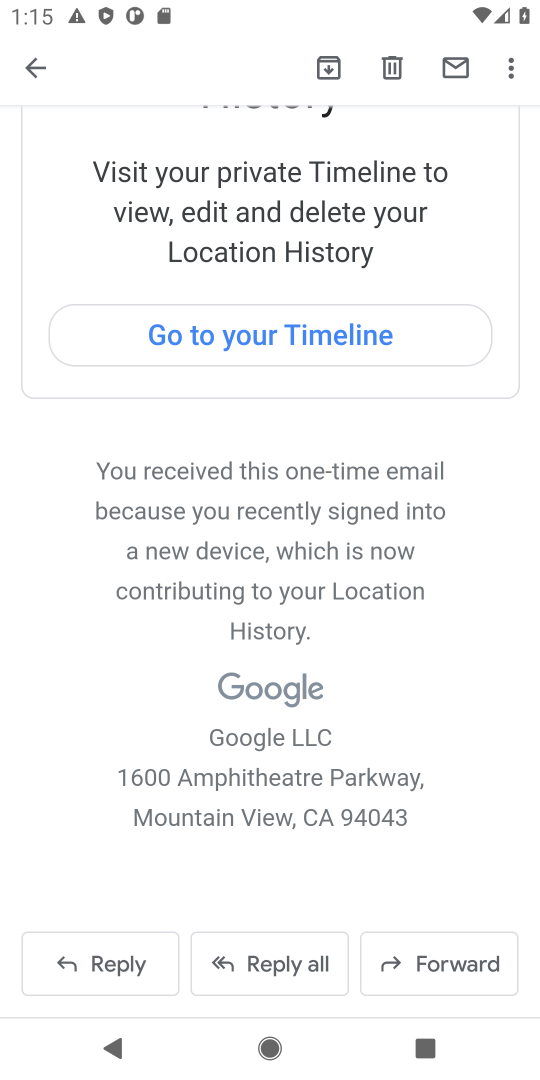
Step 54: drag from (351, 553) to (361, 360)
Your task to perform on an android device: Check my gmail Image 55: 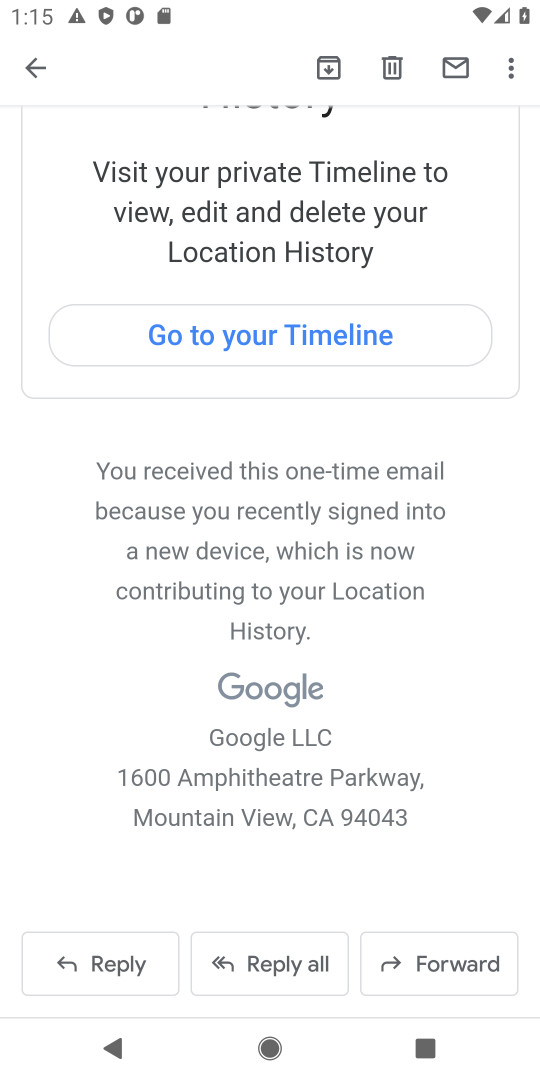
Step 55: click (37, 63)
Your task to perform on an android device: Check my gmail Image 56: 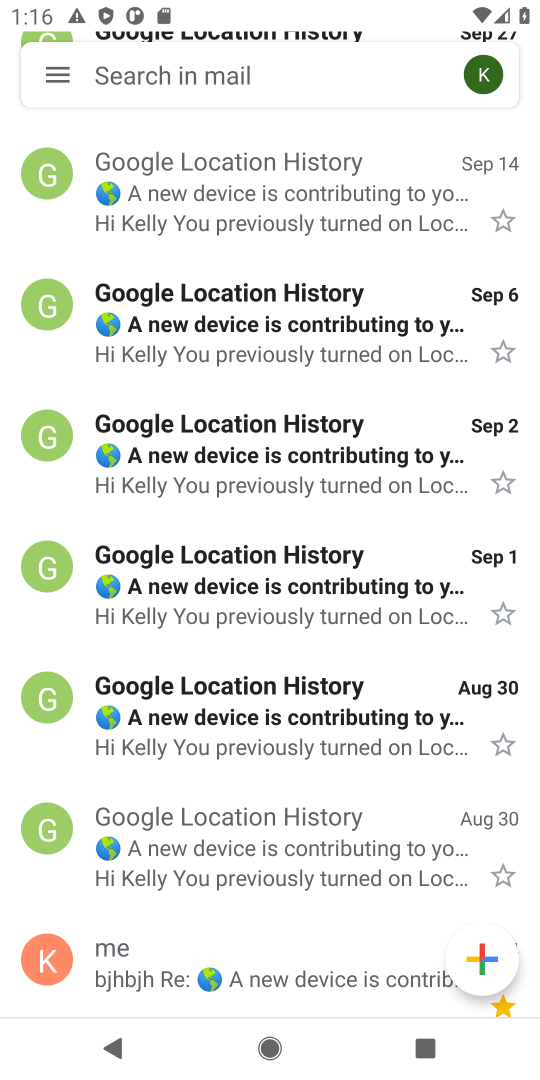
Step 56: drag from (168, 636) to (213, 346)
Your task to perform on an android device: Check my gmail Image 57: 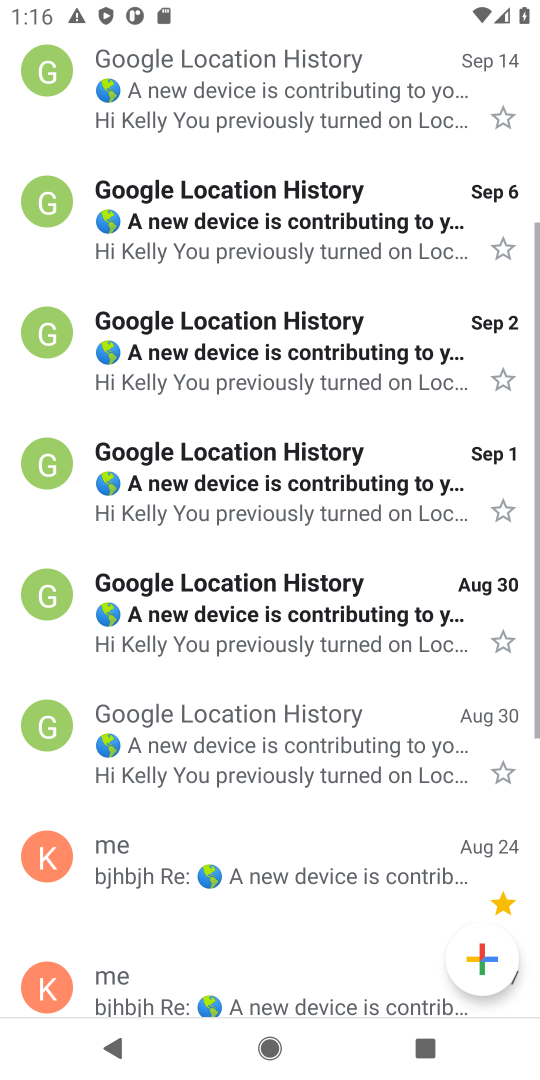
Step 57: click (275, 579)
Your task to perform on an android device: Check my gmail Image 58: 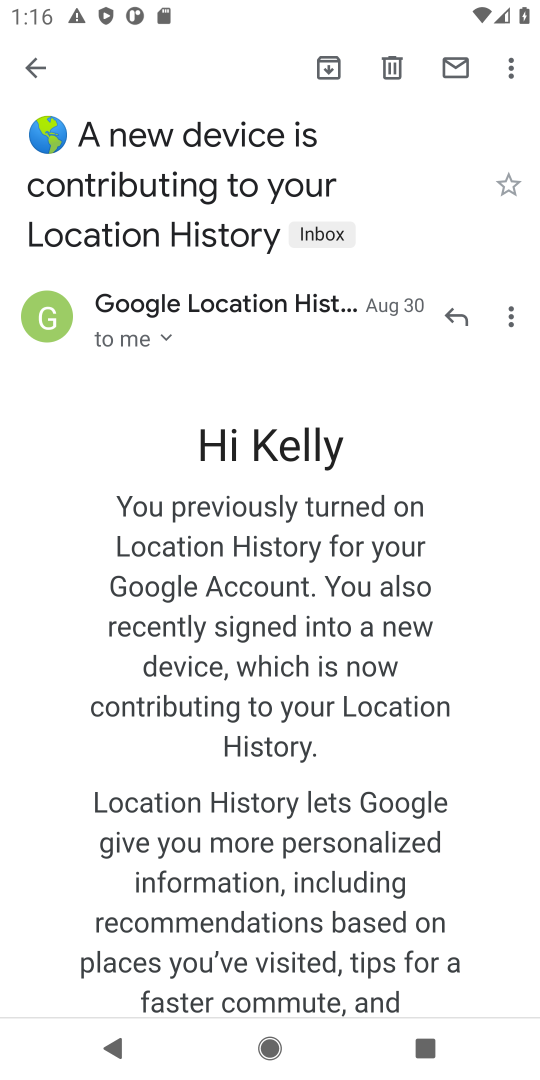
Step 58: task complete